Your task to perform on an android device: Clear the shopping cart on target. Add logitech g pro to the cart on target, then select checkout. Image 0: 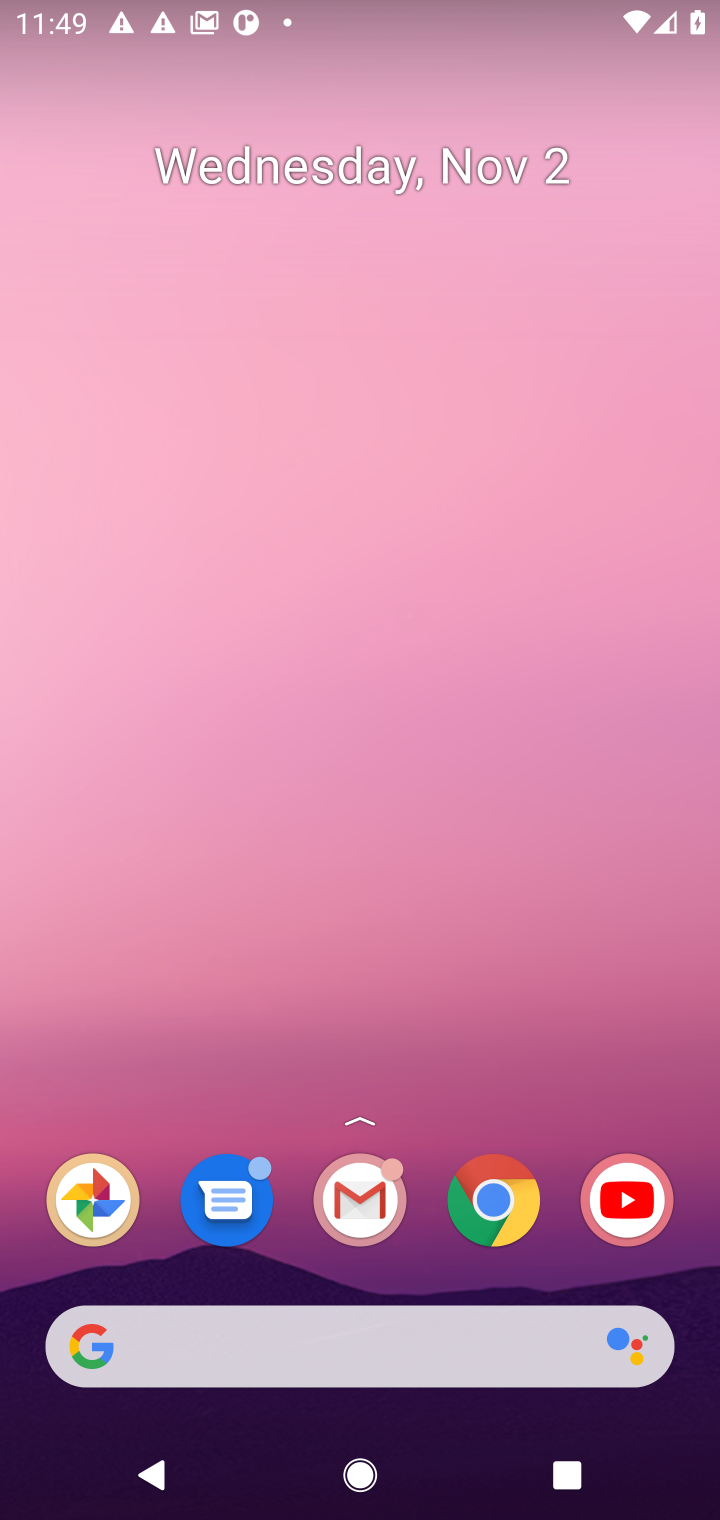
Step 0: click (491, 1205)
Your task to perform on an android device: Clear the shopping cart on target. Add logitech g pro to the cart on target, then select checkout. Image 1: 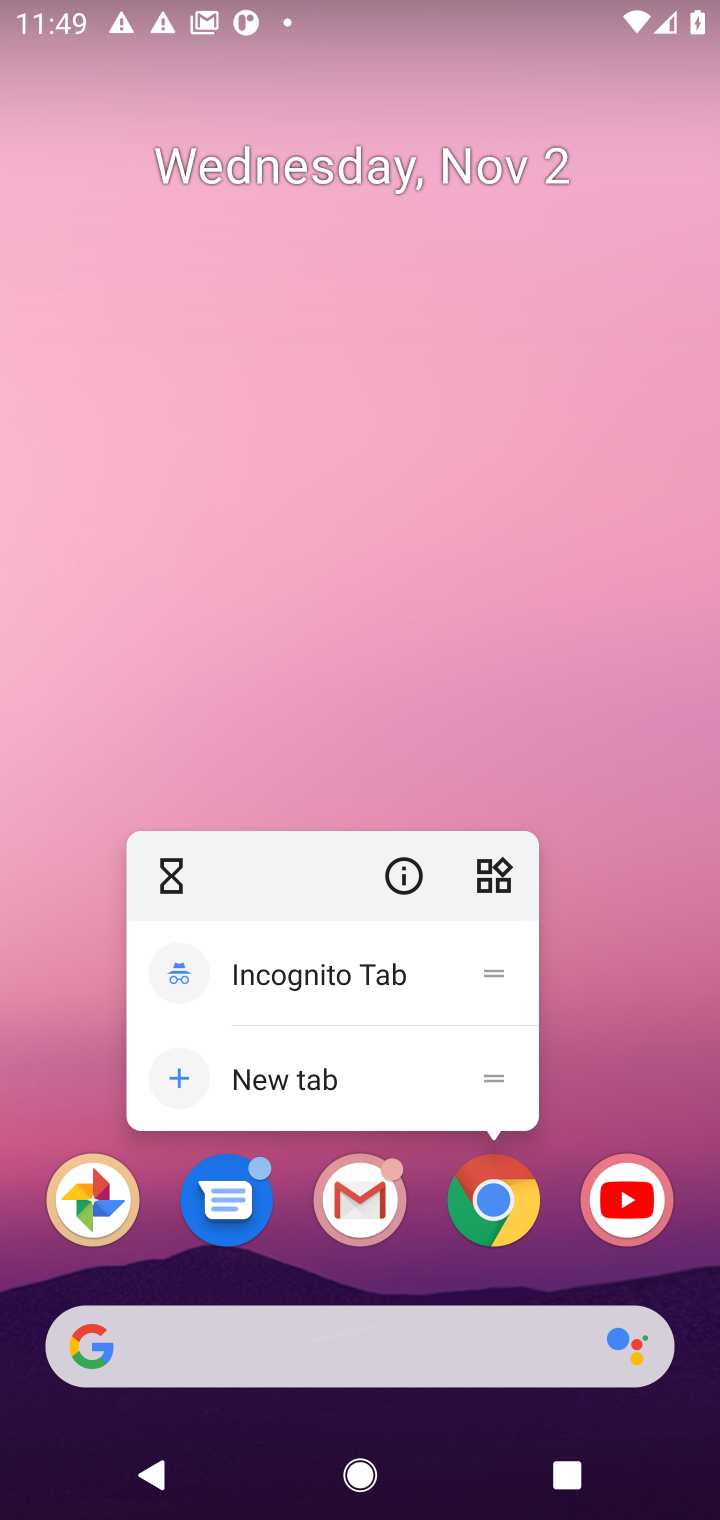
Step 1: click (491, 1205)
Your task to perform on an android device: Clear the shopping cart on target. Add logitech g pro to the cart on target, then select checkout. Image 2: 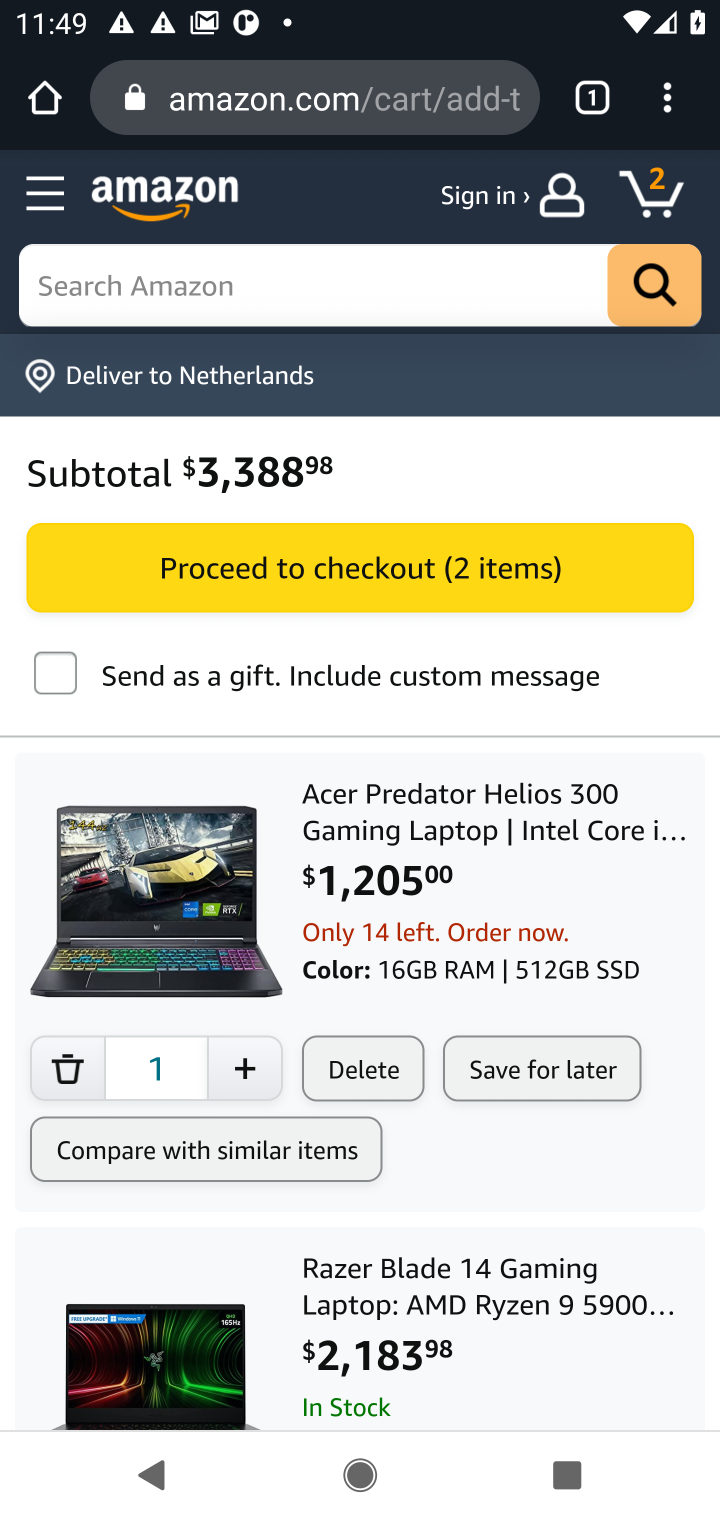
Step 2: click (49, 109)
Your task to perform on an android device: Clear the shopping cart on target. Add logitech g pro to the cart on target, then select checkout. Image 3: 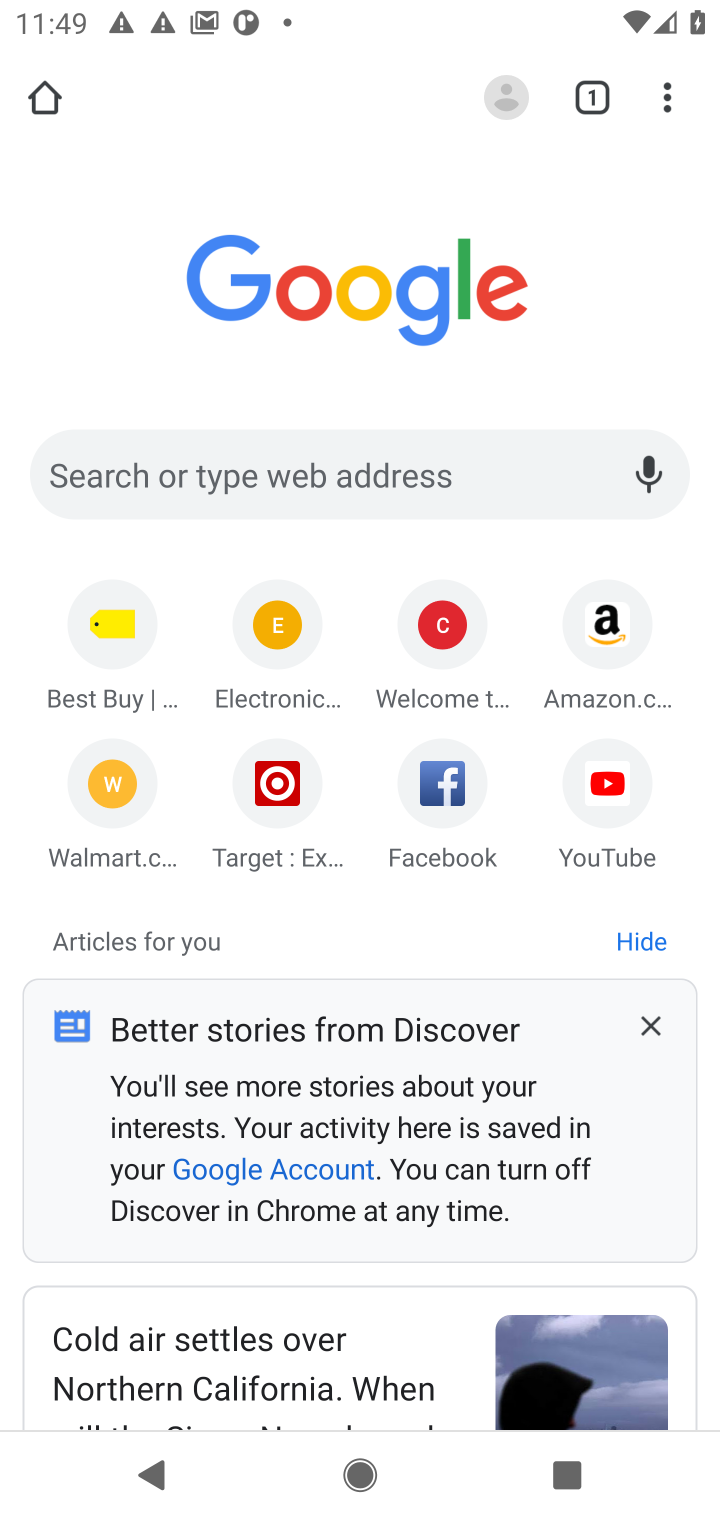
Step 3: click (459, 472)
Your task to perform on an android device: Clear the shopping cart on target. Add logitech g pro to the cart on target, then select checkout. Image 4: 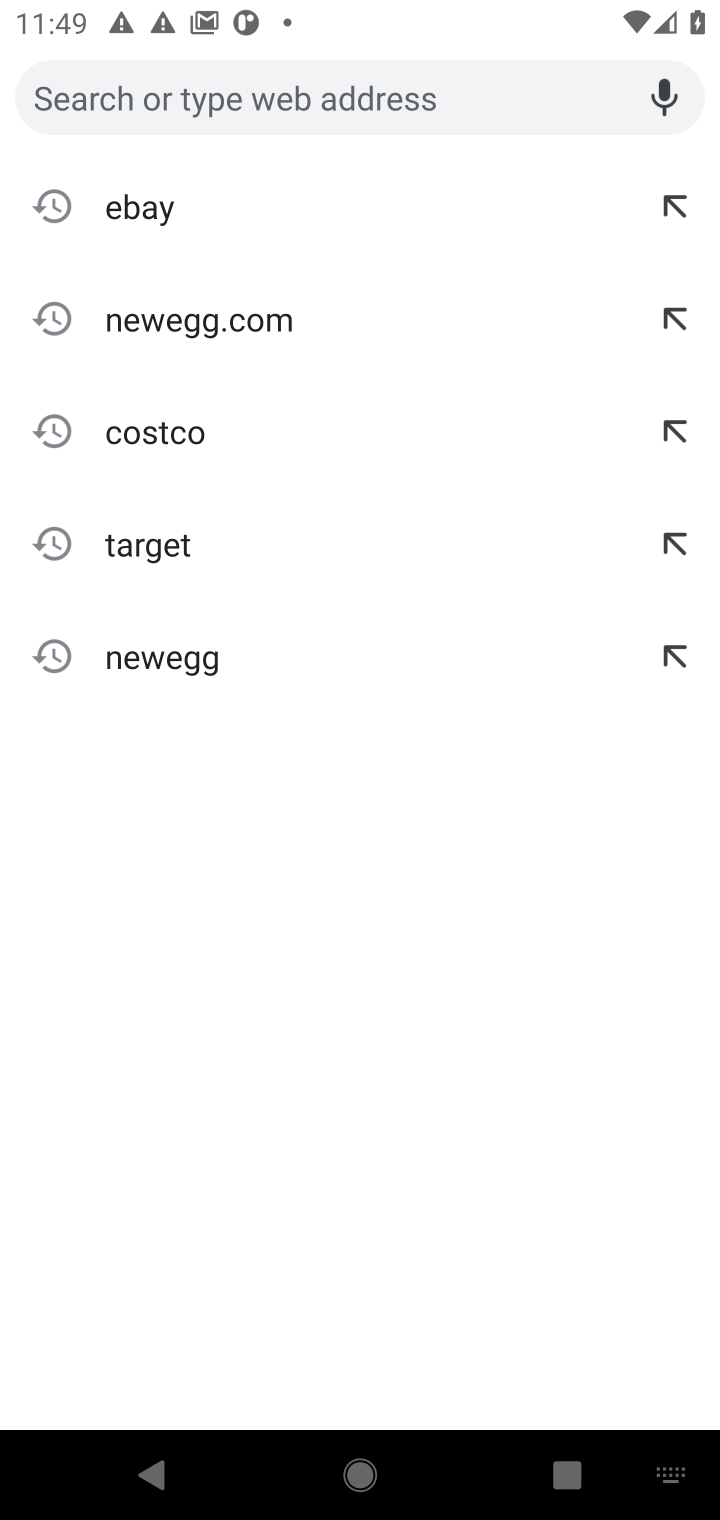
Step 4: click (168, 544)
Your task to perform on an android device: Clear the shopping cart on target. Add logitech g pro to the cart on target, then select checkout. Image 5: 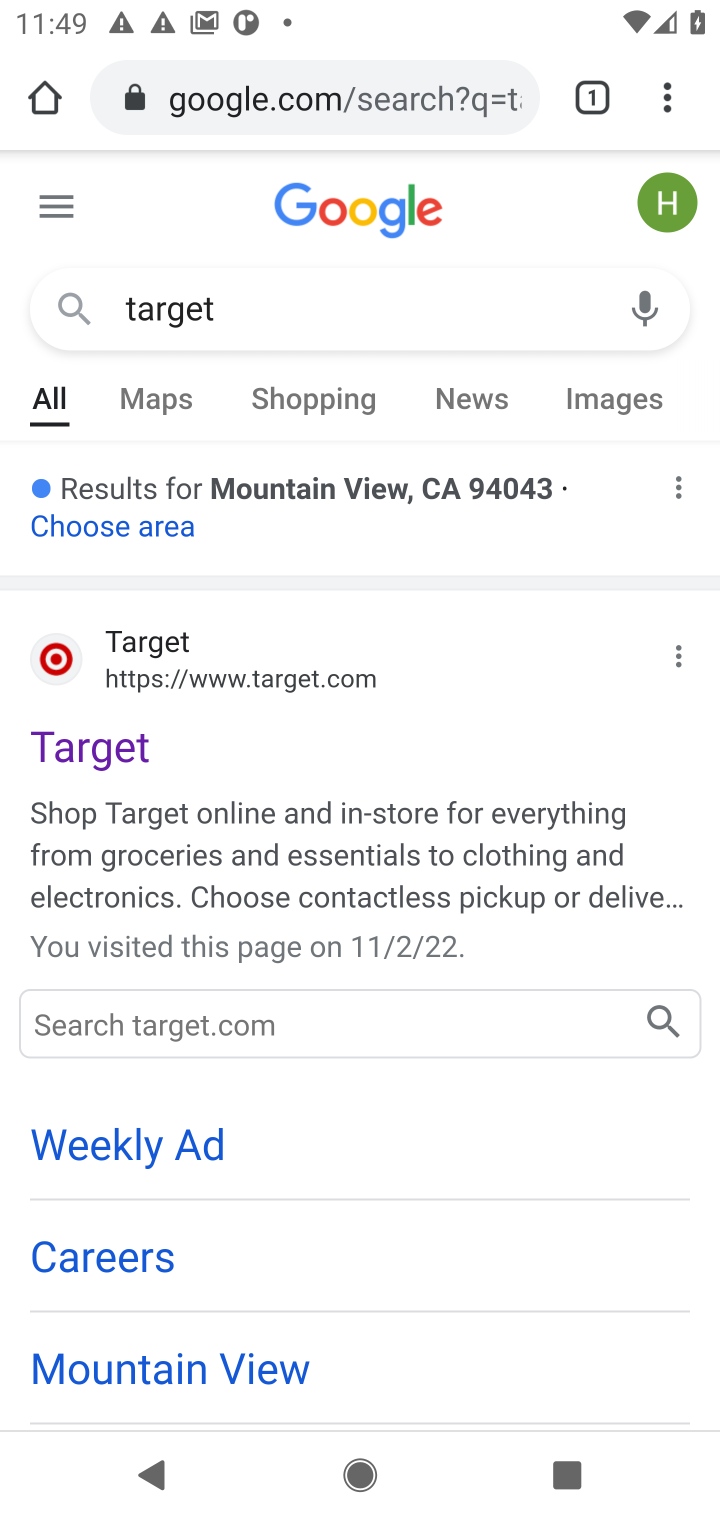
Step 5: click (166, 673)
Your task to perform on an android device: Clear the shopping cart on target. Add logitech g pro to the cart on target, then select checkout. Image 6: 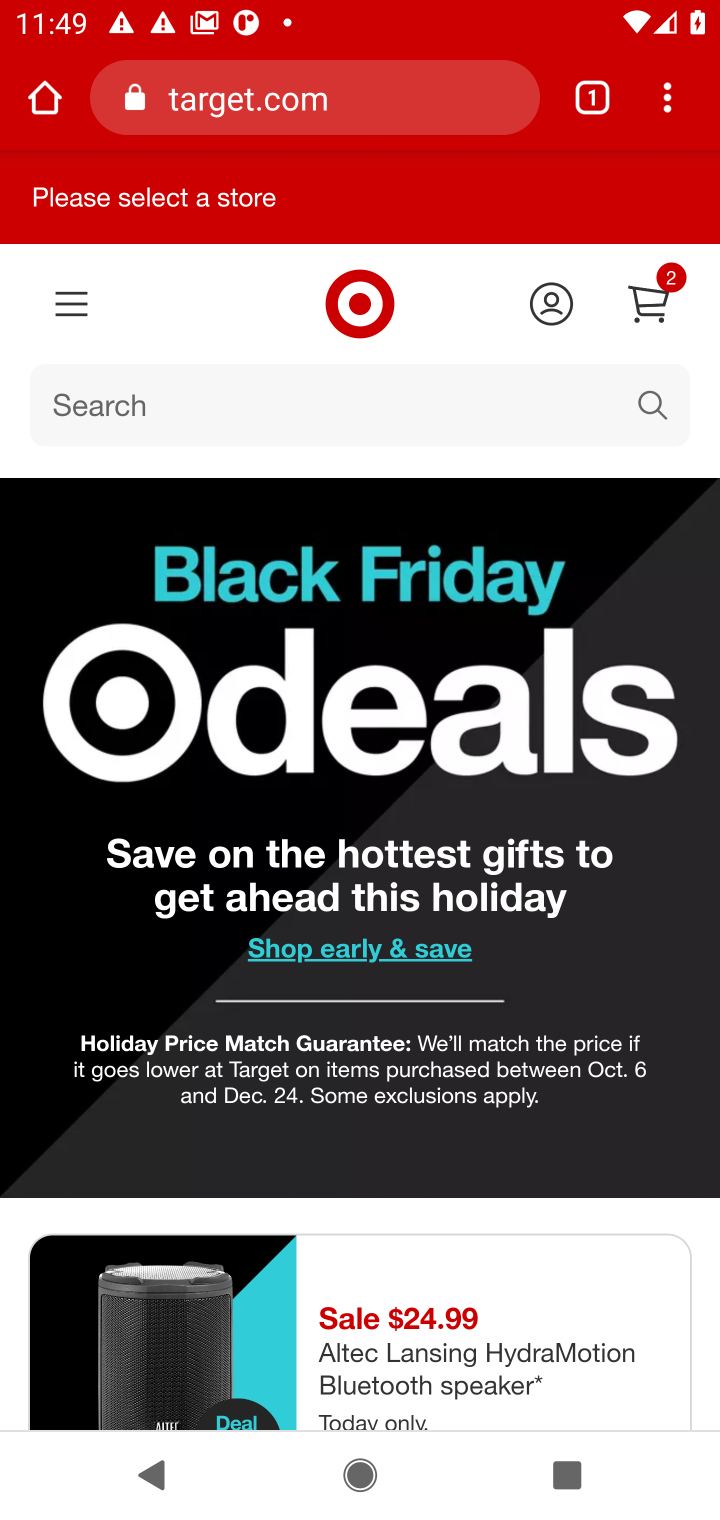
Step 6: click (646, 308)
Your task to perform on an android device: Clear the shopping cart on target. Add logitech g pro to the cart on target, then select checkout. Image 7: 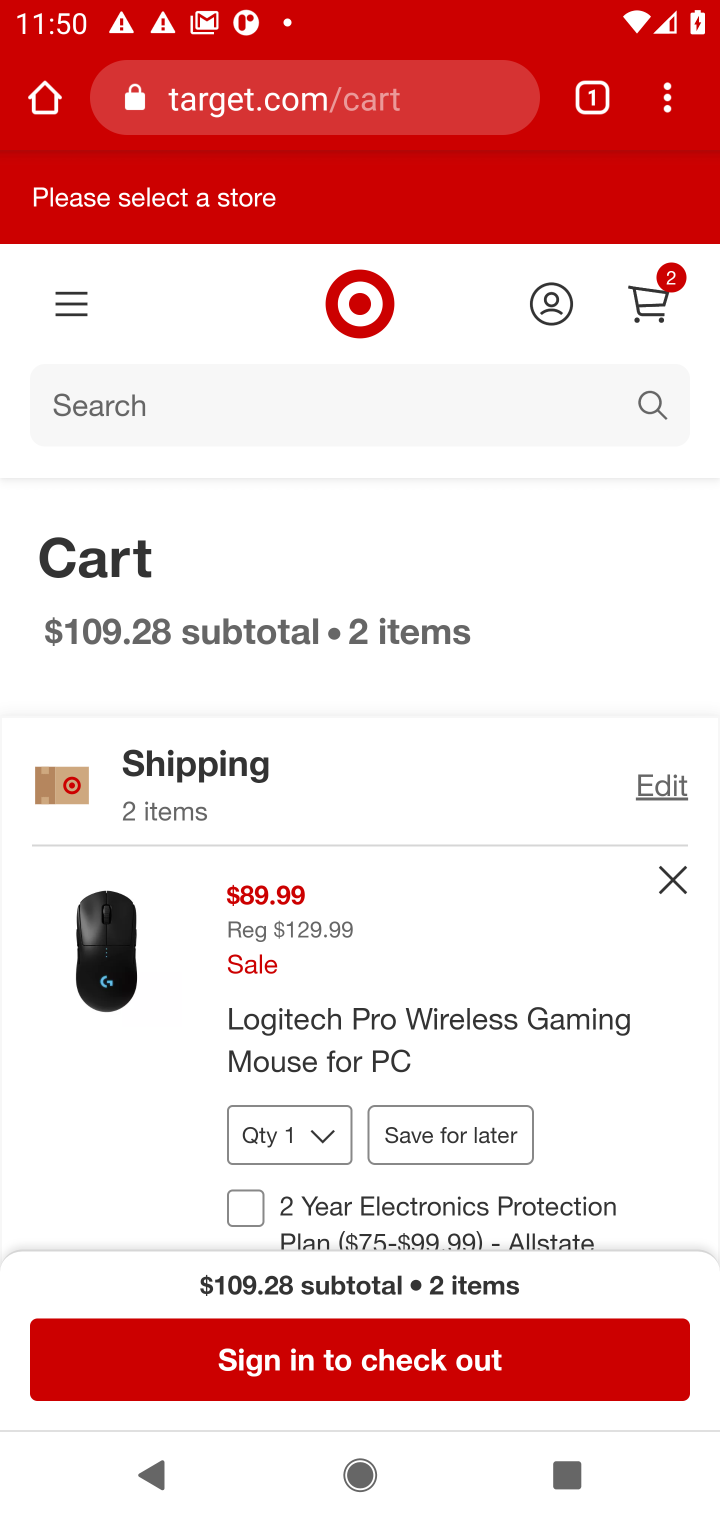
Step 7: drag from (596, 1074) to (561, 658)
Your task to perform on an android device: Clear the shopping cart on target. Add logitech g pro to the cart on target, then select checkout. Image 8: 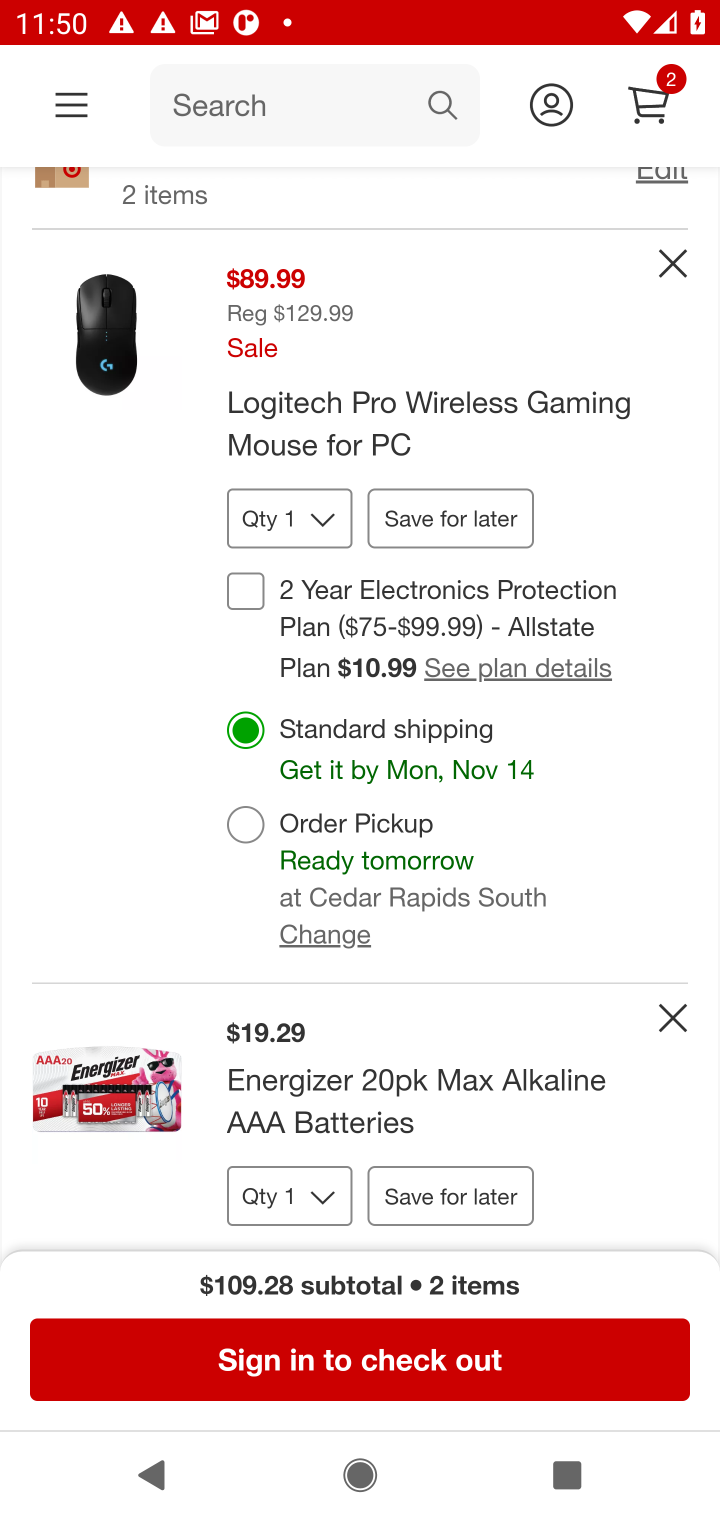
Step 8: drag from (622, 1075) to (614, 817)
Your task to perform on an android device: Clear the shopping cart on target. Add logitech g pro to the cart on target, then select checkout. Image 9: 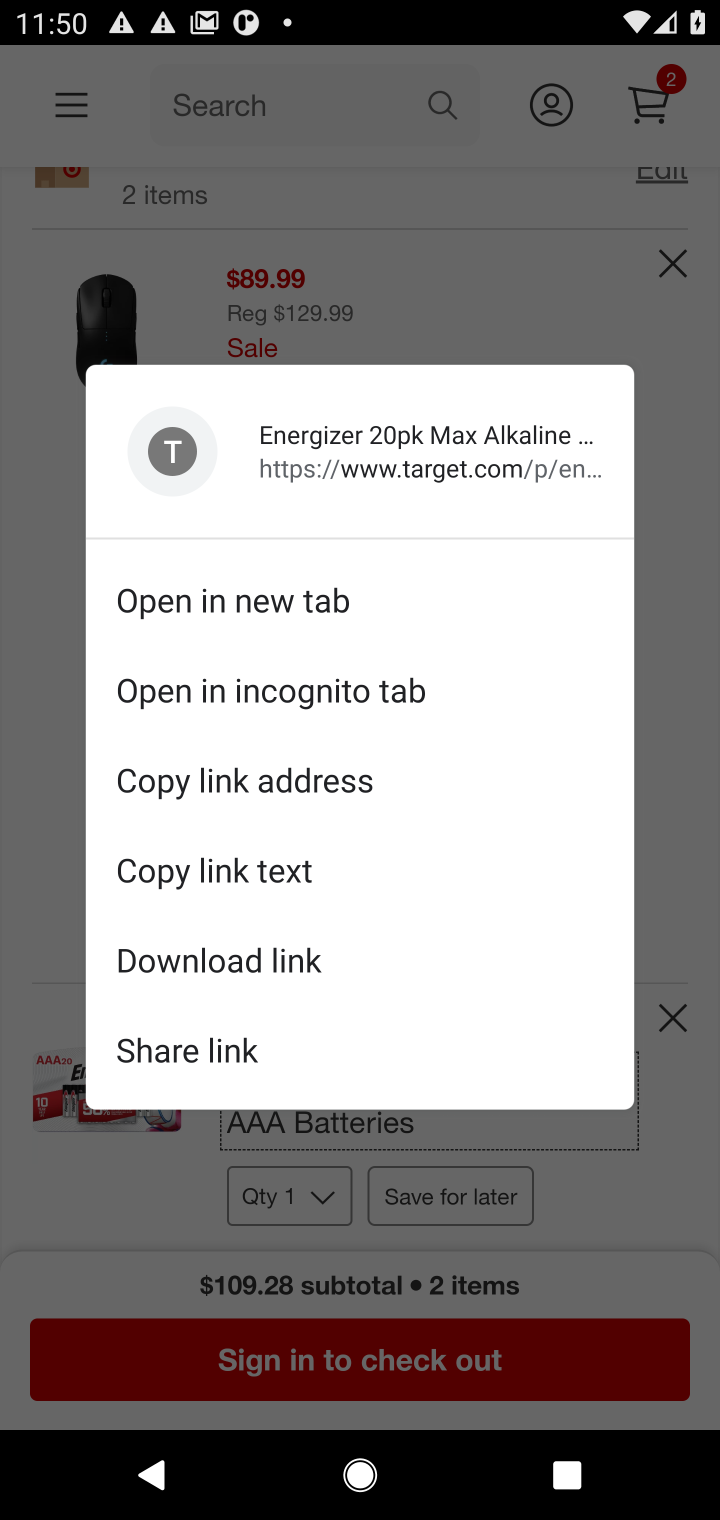
Step 9: click (656, 1158)
Your task to perform on an android device: Clear the shopping cart on target. Add logitech g pro to the cart on target, then select checkout. Image 10: 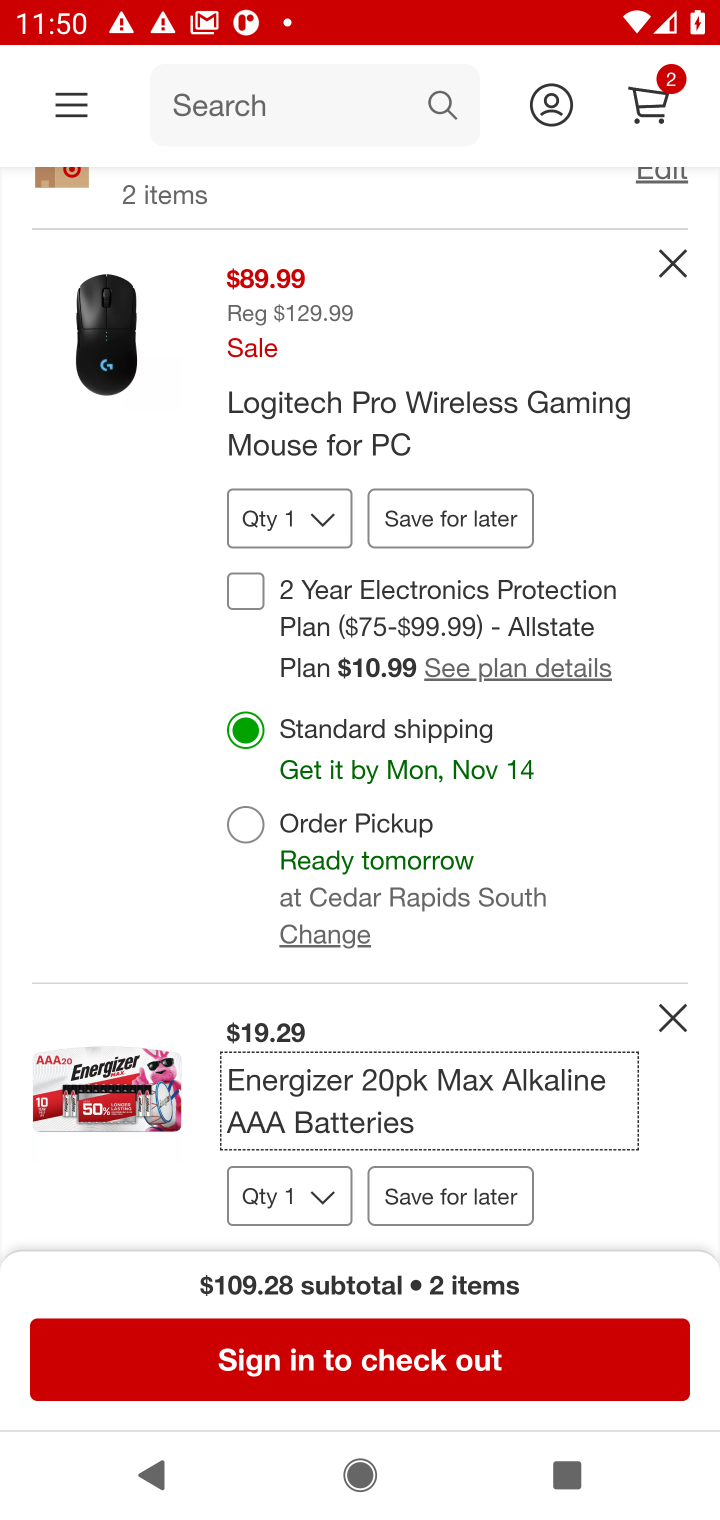
Step 10: click (680, 251)
Your task to perform on an android device: Clear the shopping cart on target. Add logitech g pro to the cart on target, then select checkout. Image 11: 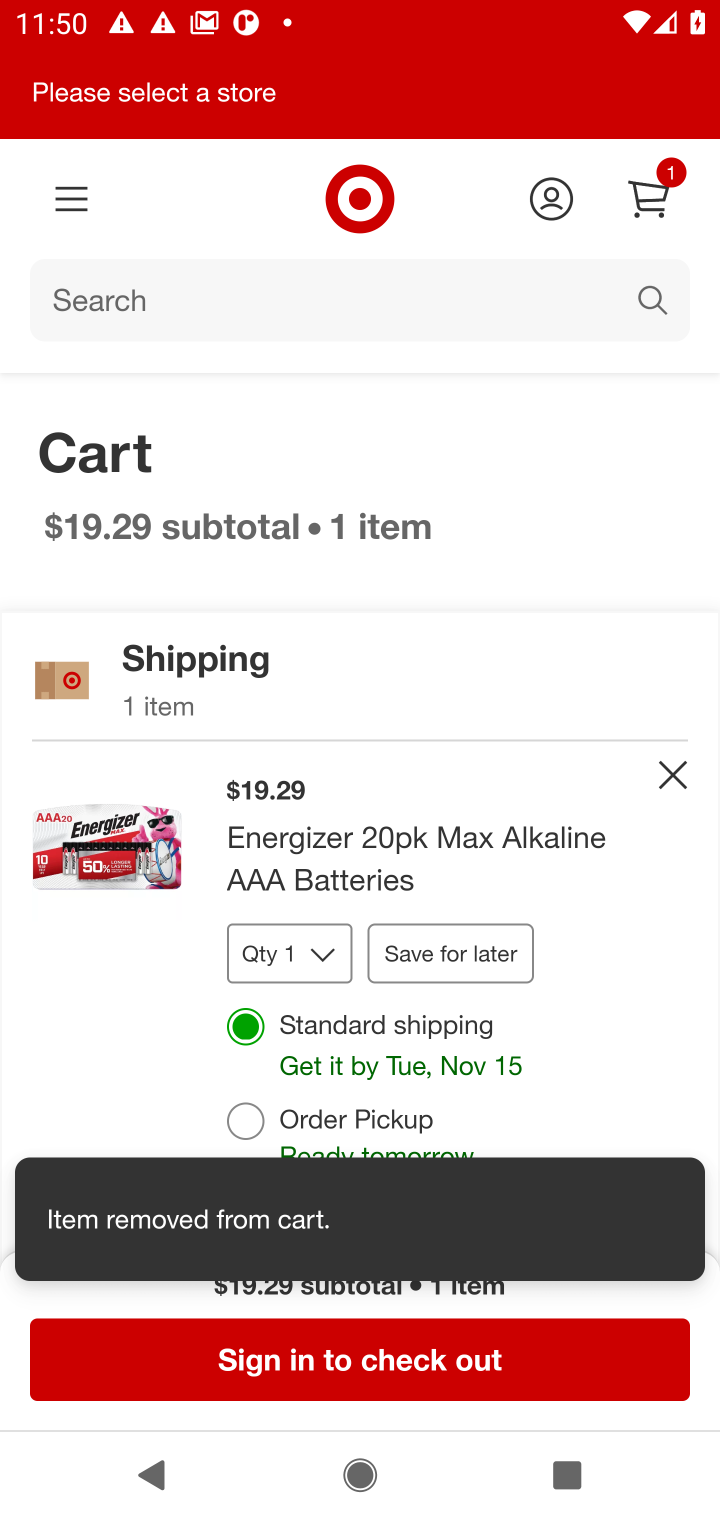
Step 11: click (687, 771)
Your task to perform on an android device: Clear the shopping cart on target. Add logitech g pro to the cart on target, then select checkout. Image 12: 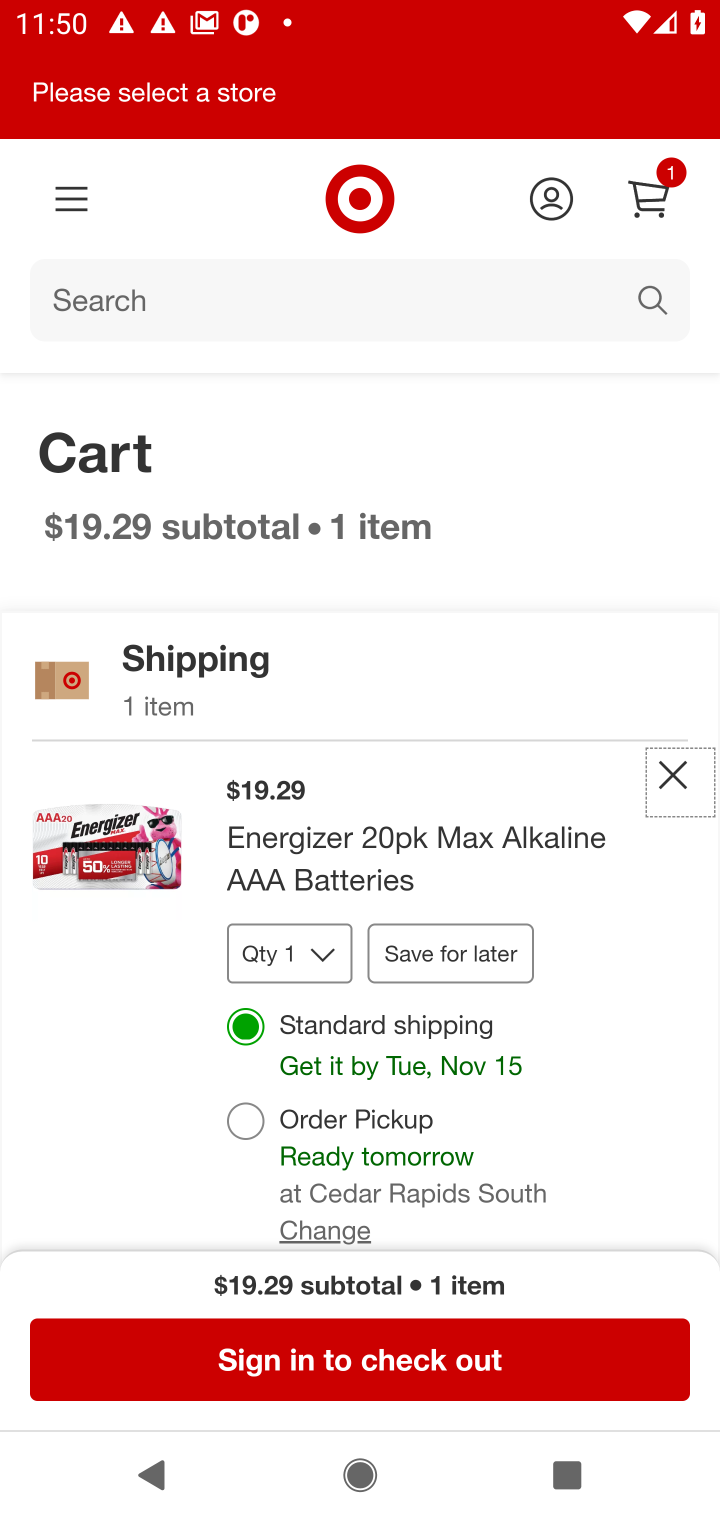
Step 12: click (675, 774)
Your task to perform on an android device: Clear the shopping cart on target. Add logitech g pro to the cart on target, then select checkout. Image 13: 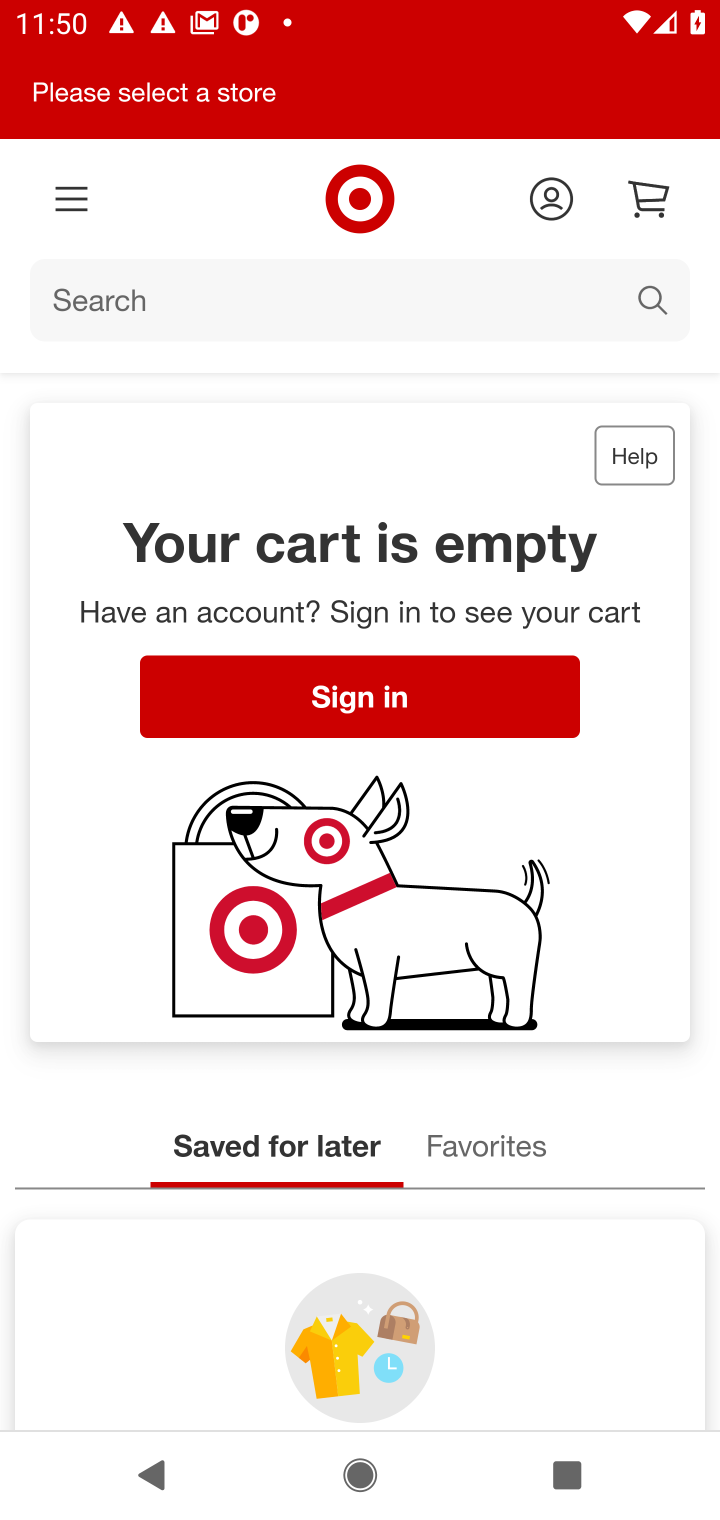
Step 13: click (635, 293)
Your task to perform on an android device: Clear the shopping cart on target. Add logitech g pro to the cart on target, then select checkout. Image 14: 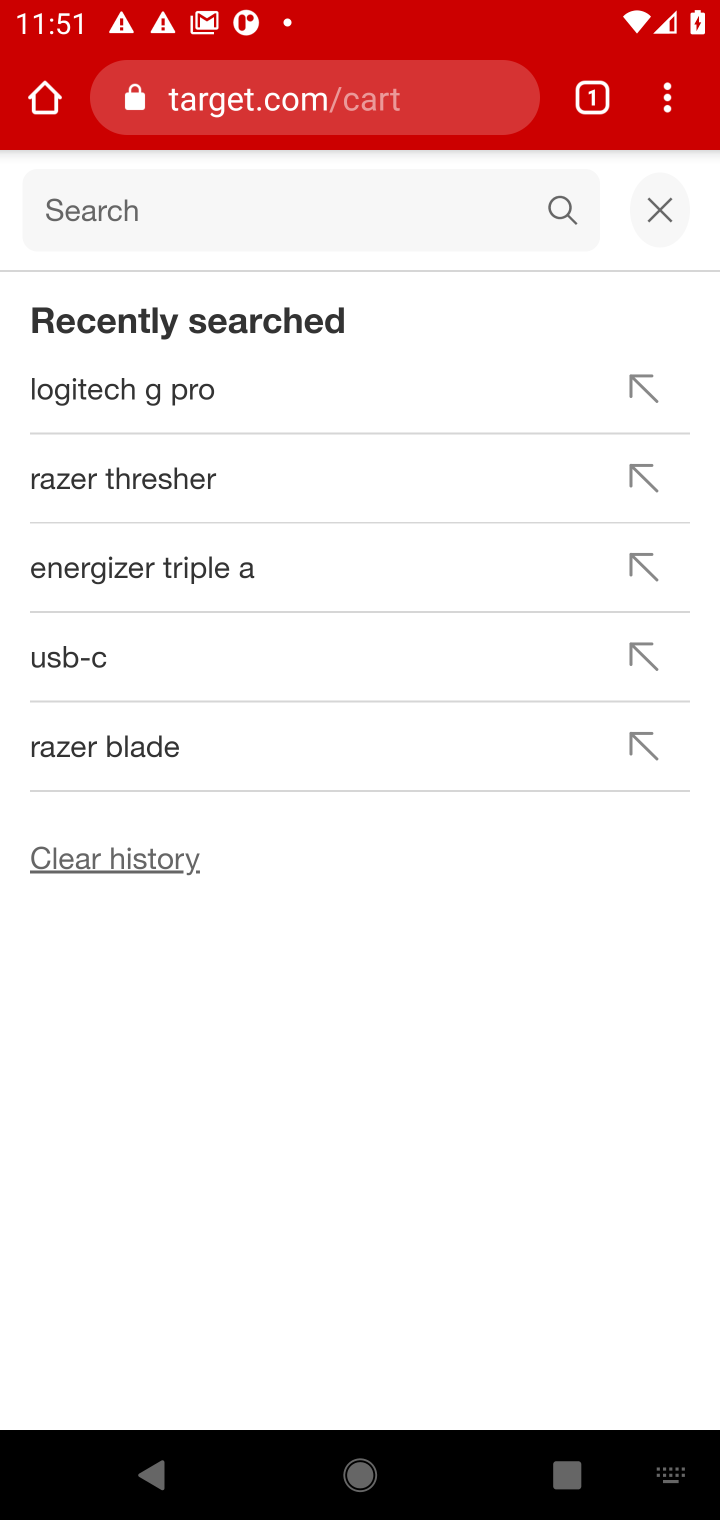
Step 14: click (176, 394)
Your task to perform on an android device: Clear the shopping cart on target. Add logitech g pro to the cart on target, then select checkout. Image 15: 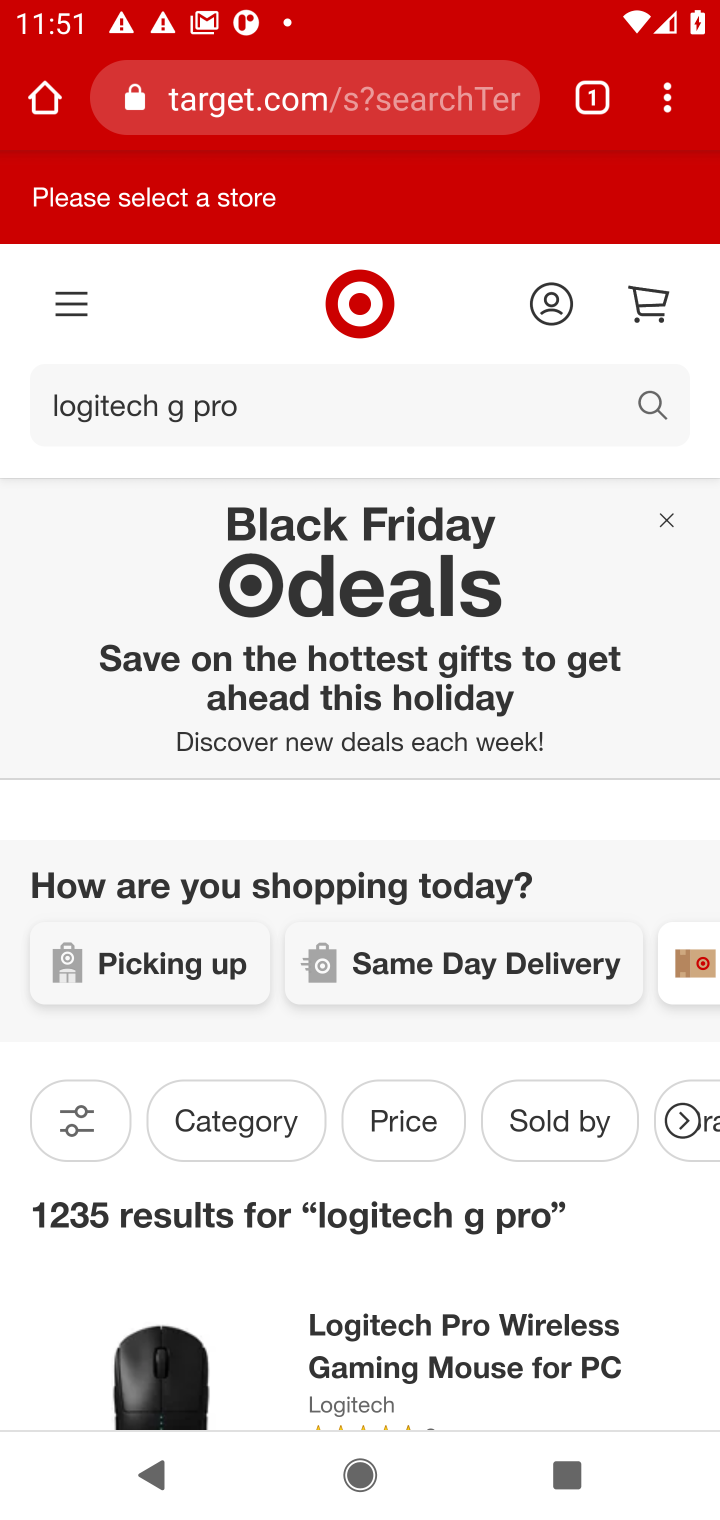
Step 15: drag from (531, 1233) to (454, 522)
Your task to perform on an android device: Clear the shopping cart on target. Add logitech g pro to the cart on target, then select checkout. Image 16: 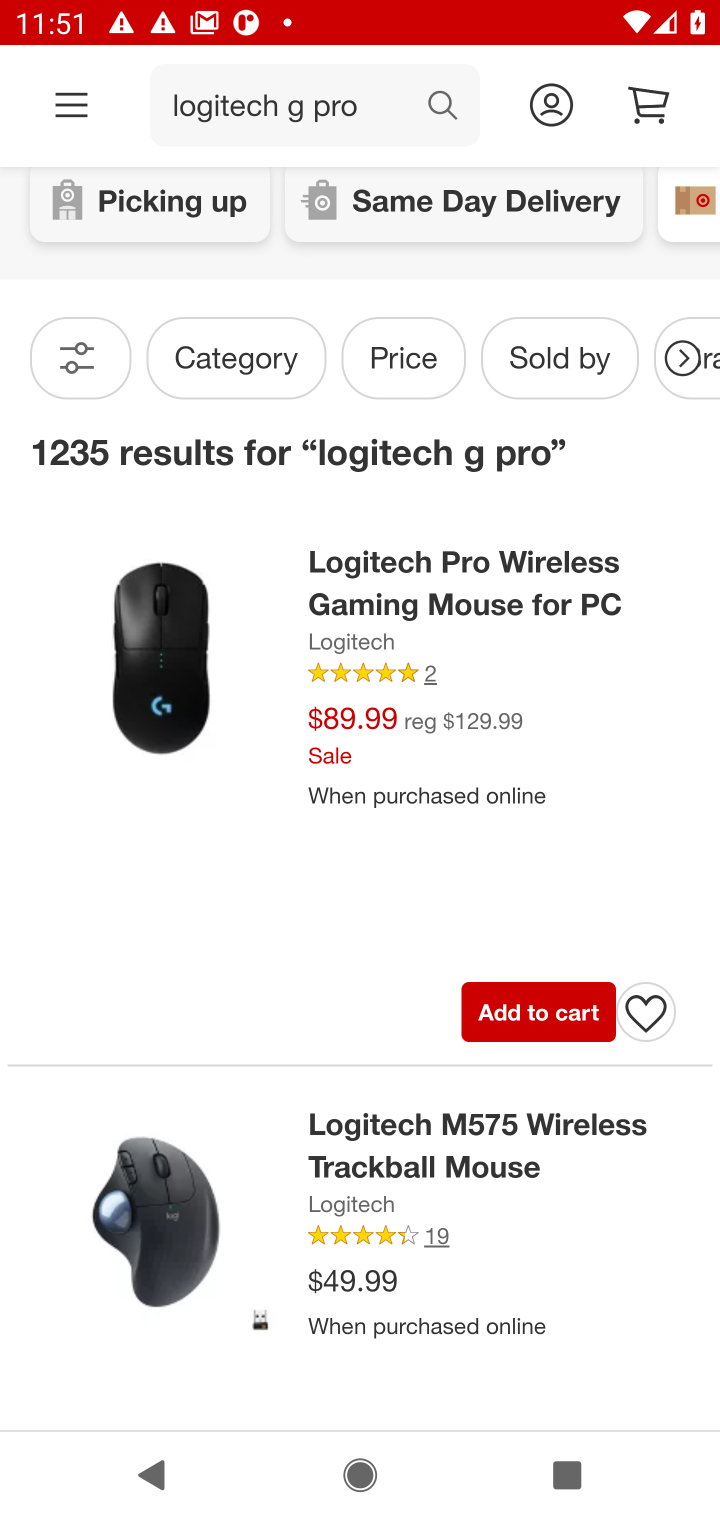
Step 16: drag from (521, 1238) to (467, 695)
Your task to perform on an android device: Clear the shopping cart on target. Add logitech g pro to the cart on target, then select checkout. Image 17: 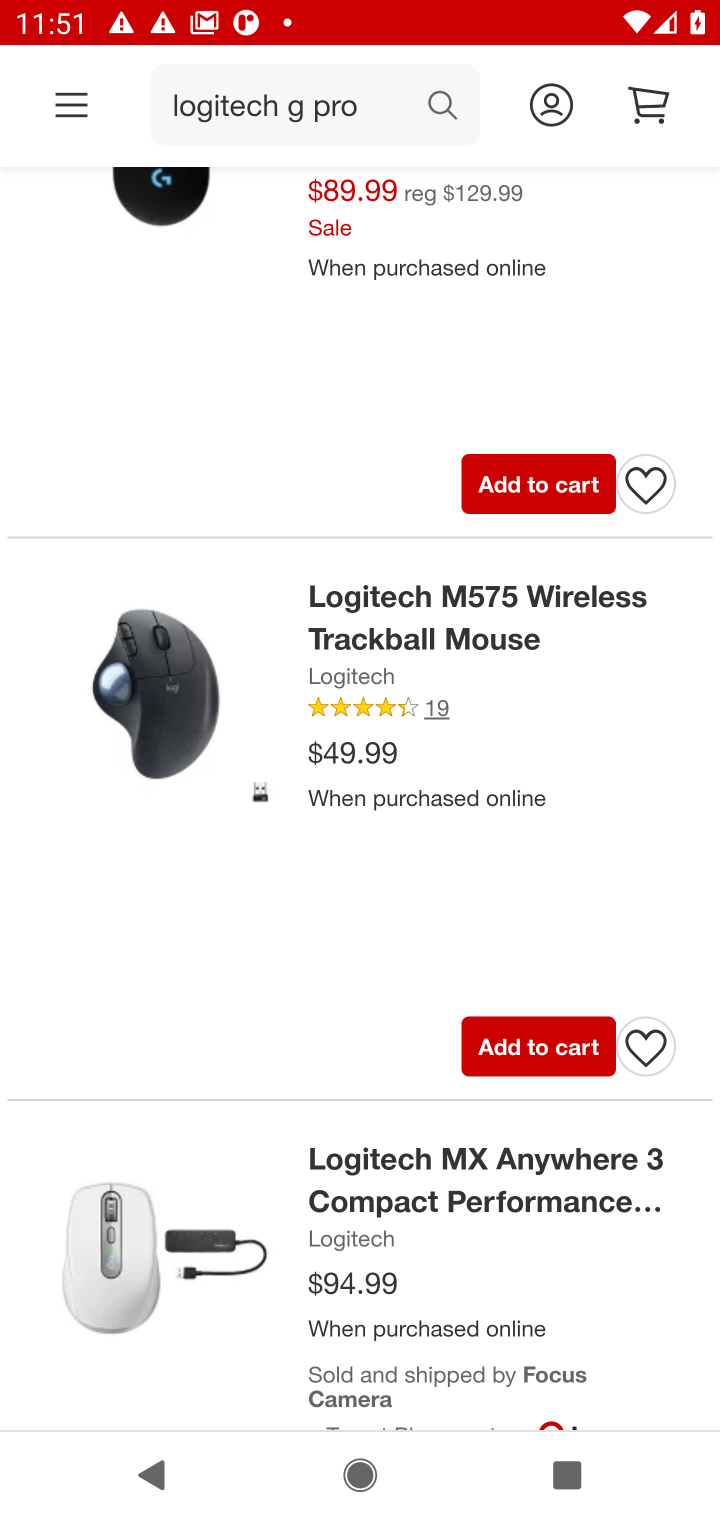
Step 17: drag from (535, 1253) to (417, 540)
Your task to perform on an android device: Clear the shopping cart on target. Add logitech g pro to the cart on target, then select checkout. Image 18: 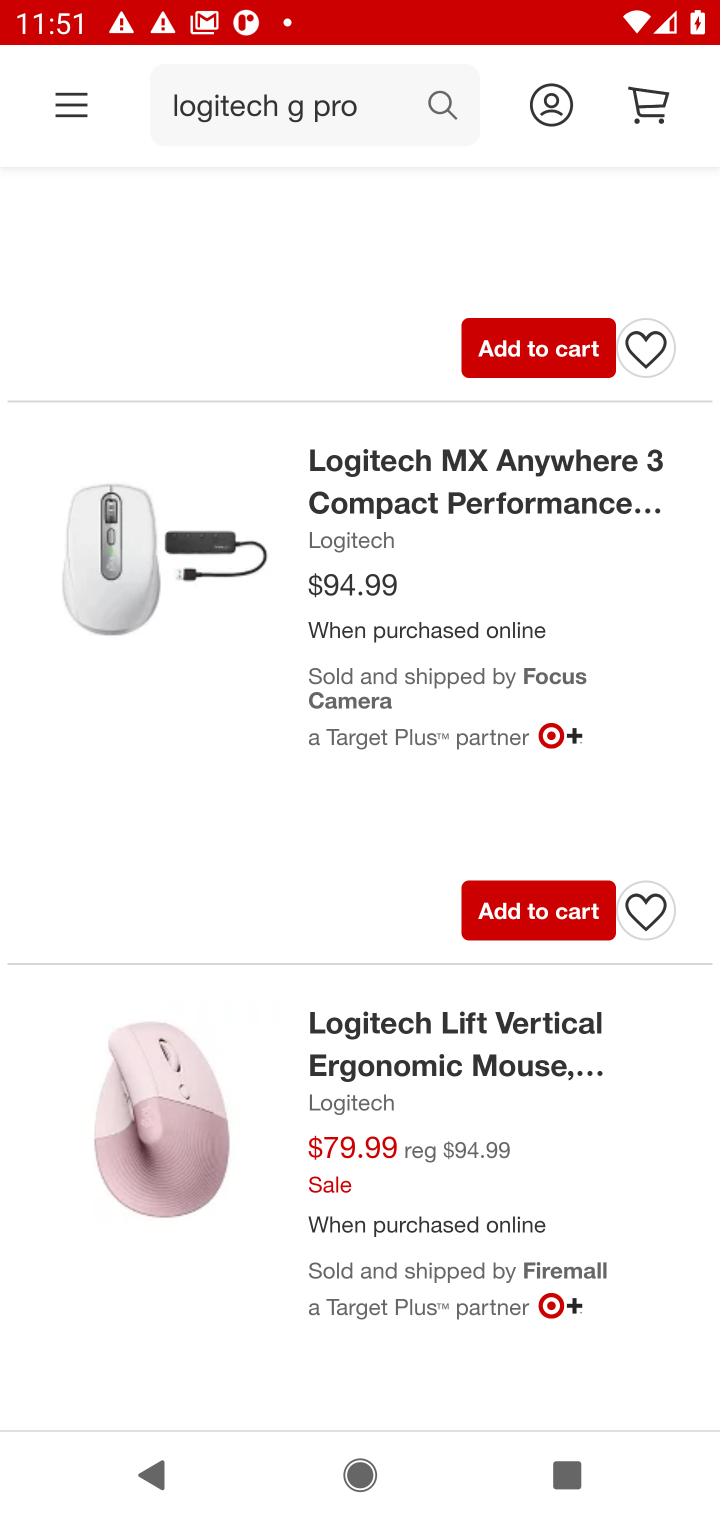
Step 18: drag from (570, 1132) to (508, 555)
Your task to perform on an android device: Clear the shopping cart on target. Add logitech g pro to the cart on target, then select checkout. Image 19: 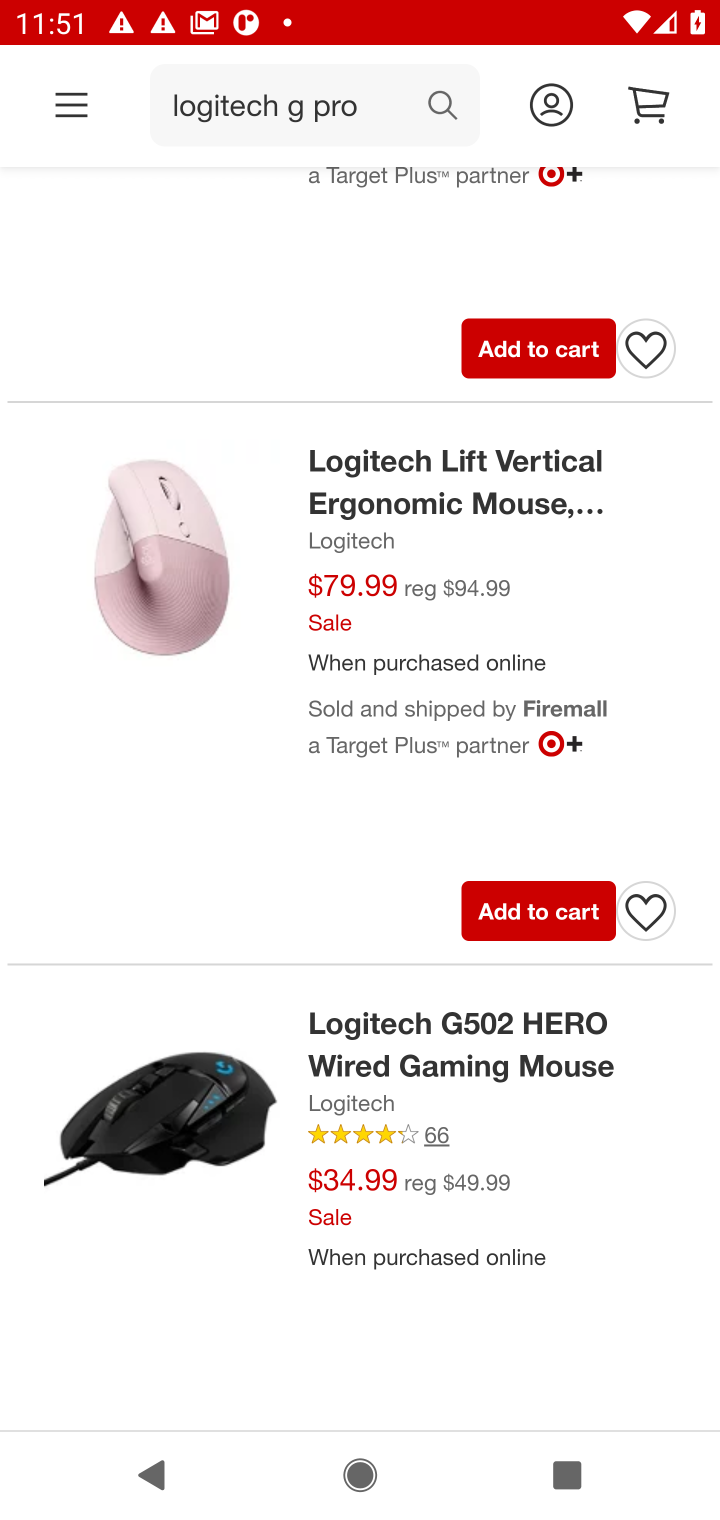
Step 19: drag from (582, 1113) to (567, 632)
Your task to perform on an android device: Clear the shopping cart on target. Add logitech g pro to the cart on target, then select checkout. Image 20: 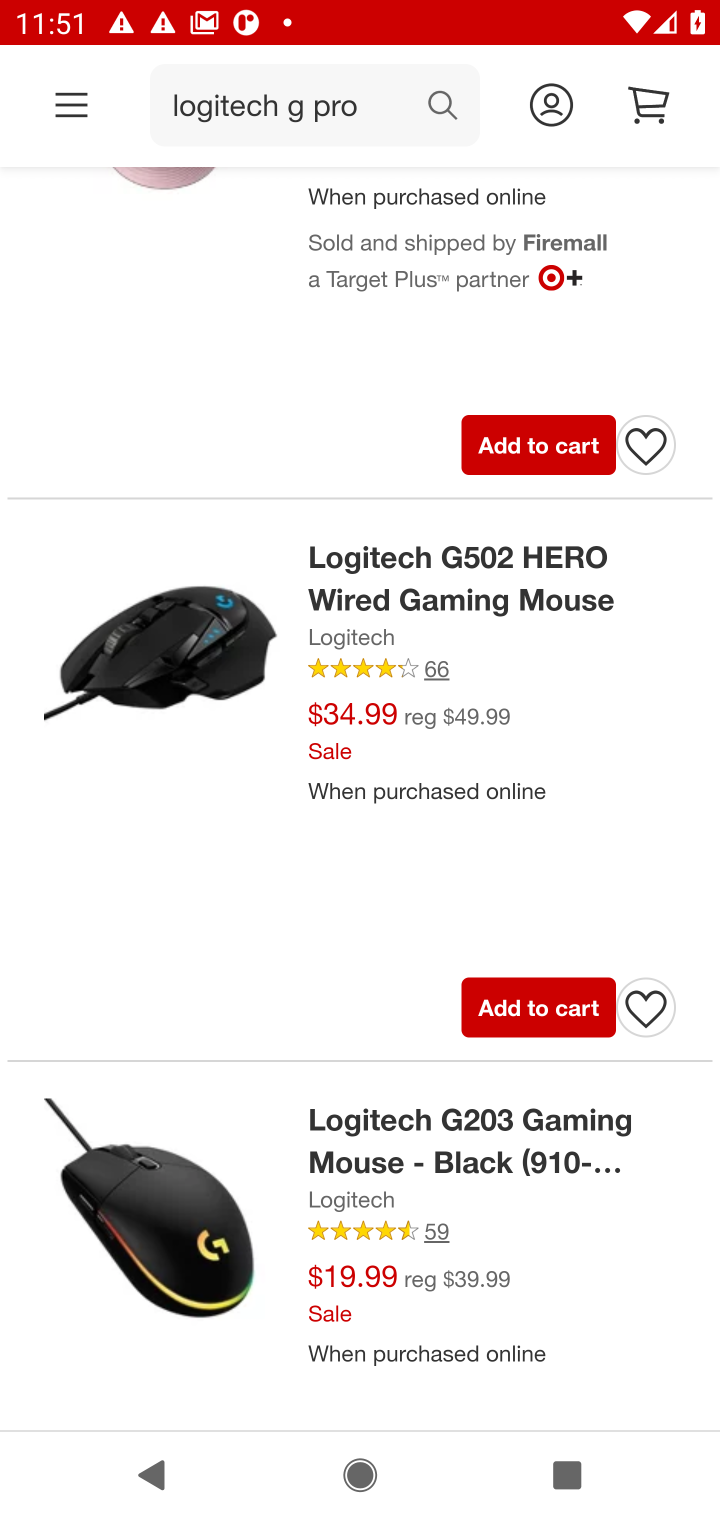
Step 20: drag from (305, 408) to (354, 1248)
Your task to perform on an android device: Clear the shopping cart on target. Add logitech g pro to the cart on target, then select checkout. Image 21: 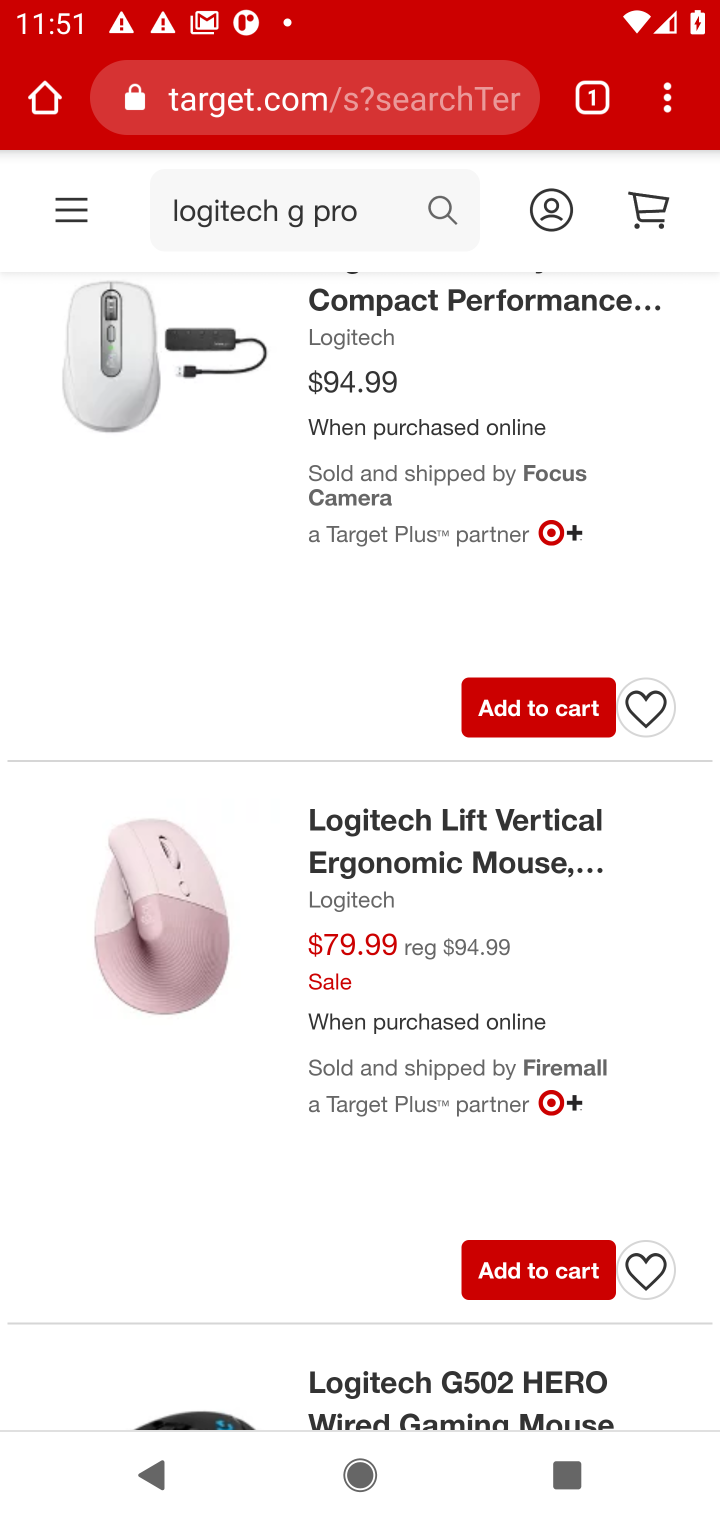
Step 21: drag from (500, 504) to (583, 1147)
Your task to perform on an android device: Clear the shopping cart on target. Add logitech g pro to the cart on target, then select checkout. Image 22: 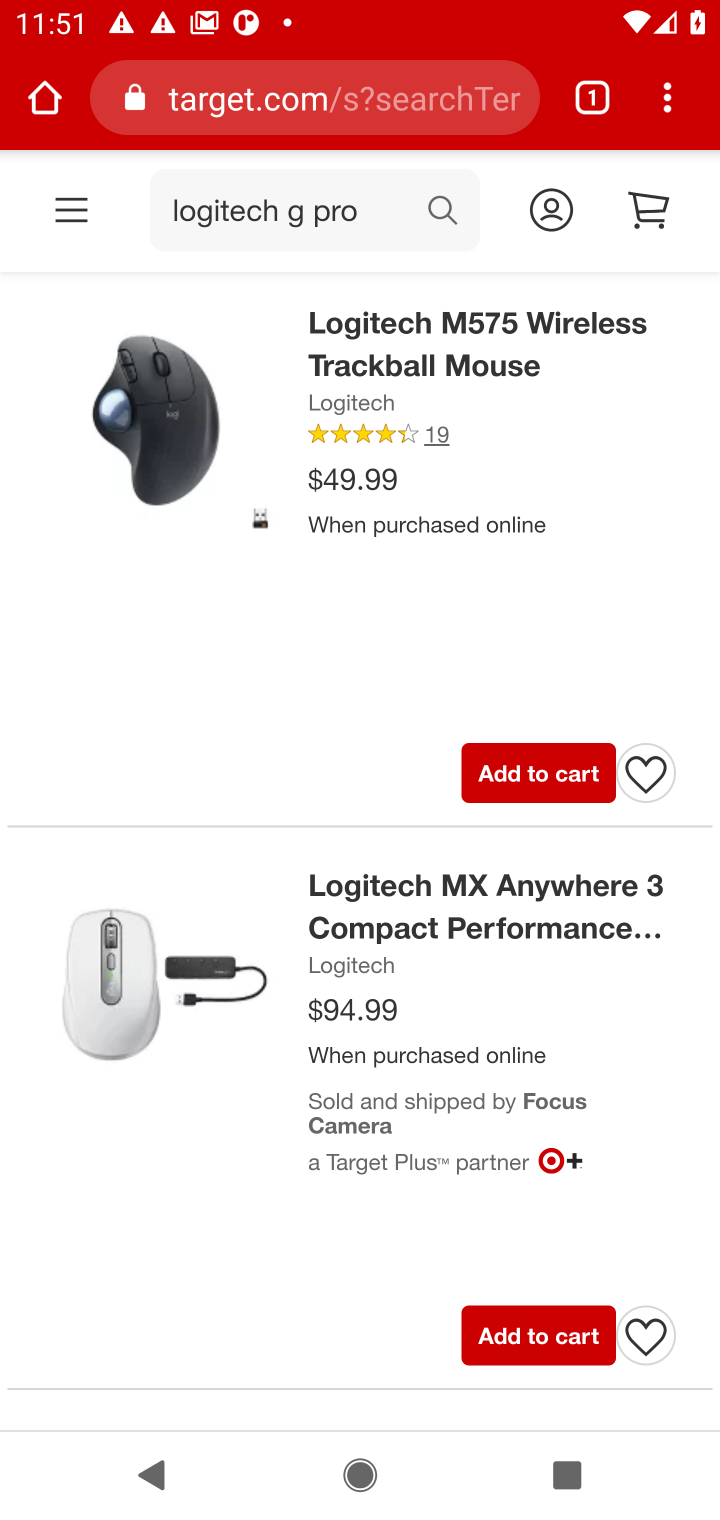
Step 22: drag from (545, 463) to (553, 1148)
Your task to perform on an android device: Clear the shopping cart on target. Add logitech g pro to the cart on target, then select checkout. Image 23: 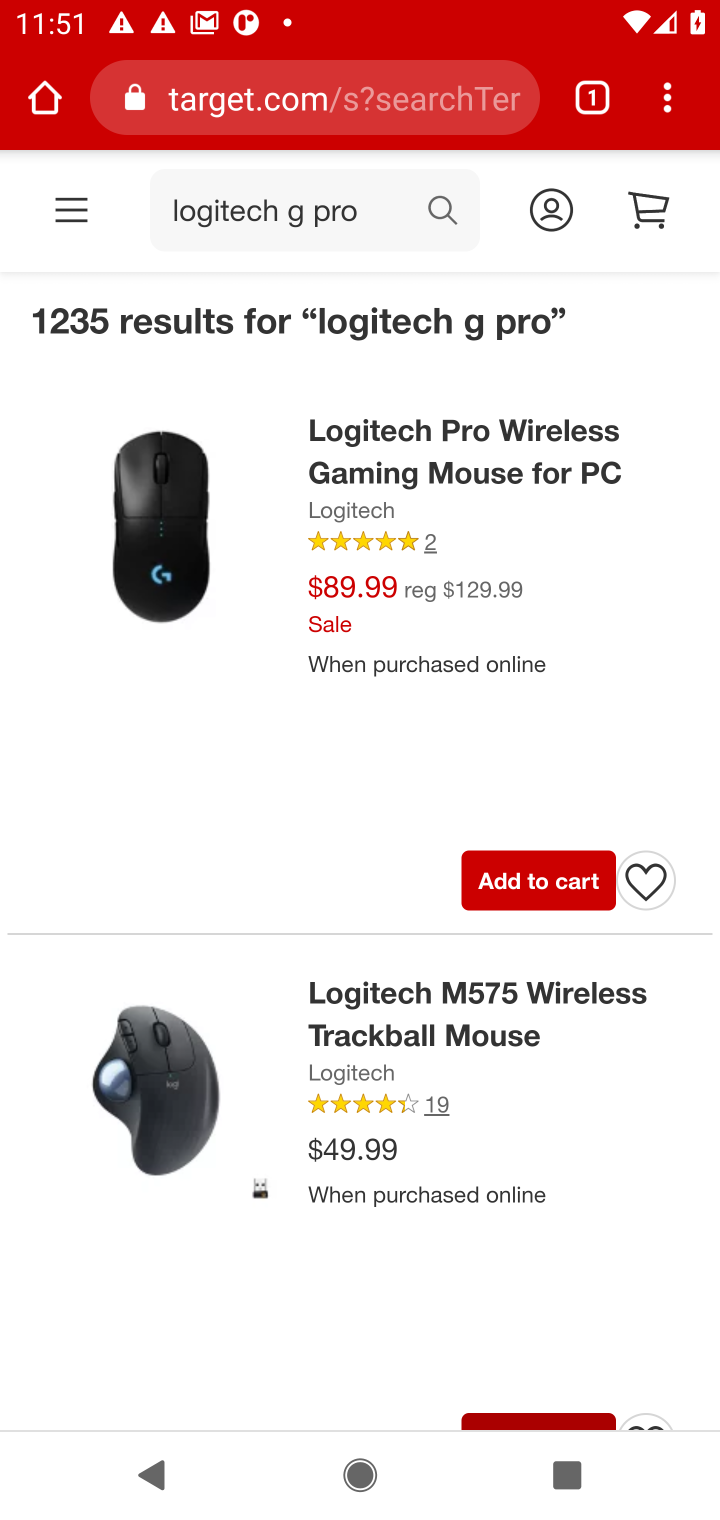
Step 23: drag from (509, 388) to (440, 1246)
Your task to perform on an android device: Clear the shopping cart on target. Add logitech g pro to the cart on target, then select checkout. Image 24: 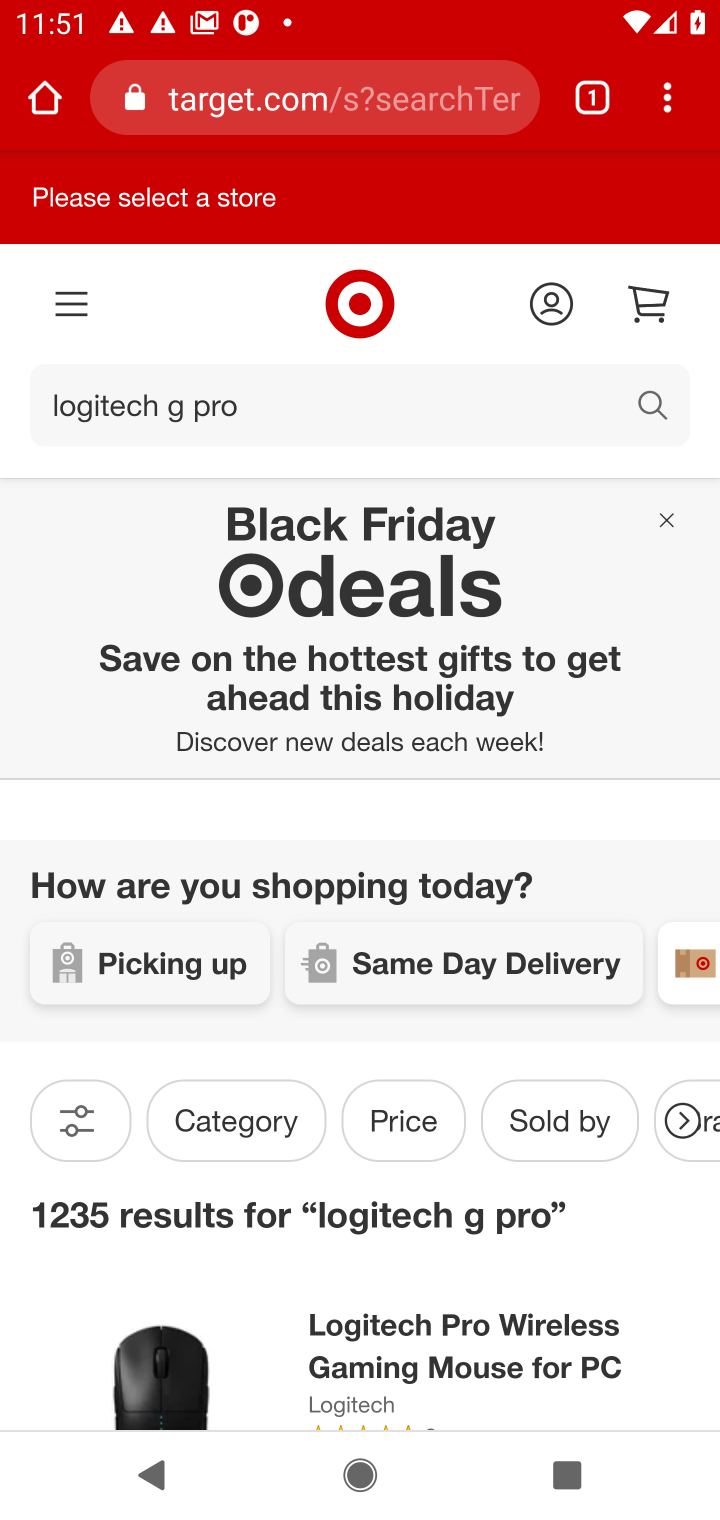
Step 24: drag from (336, 1227) to (429, 887)
Your task to perform on an android device: Clear the shopping cart on target. Add logitech g pro to the cart on target, then select checkout. Image 25: 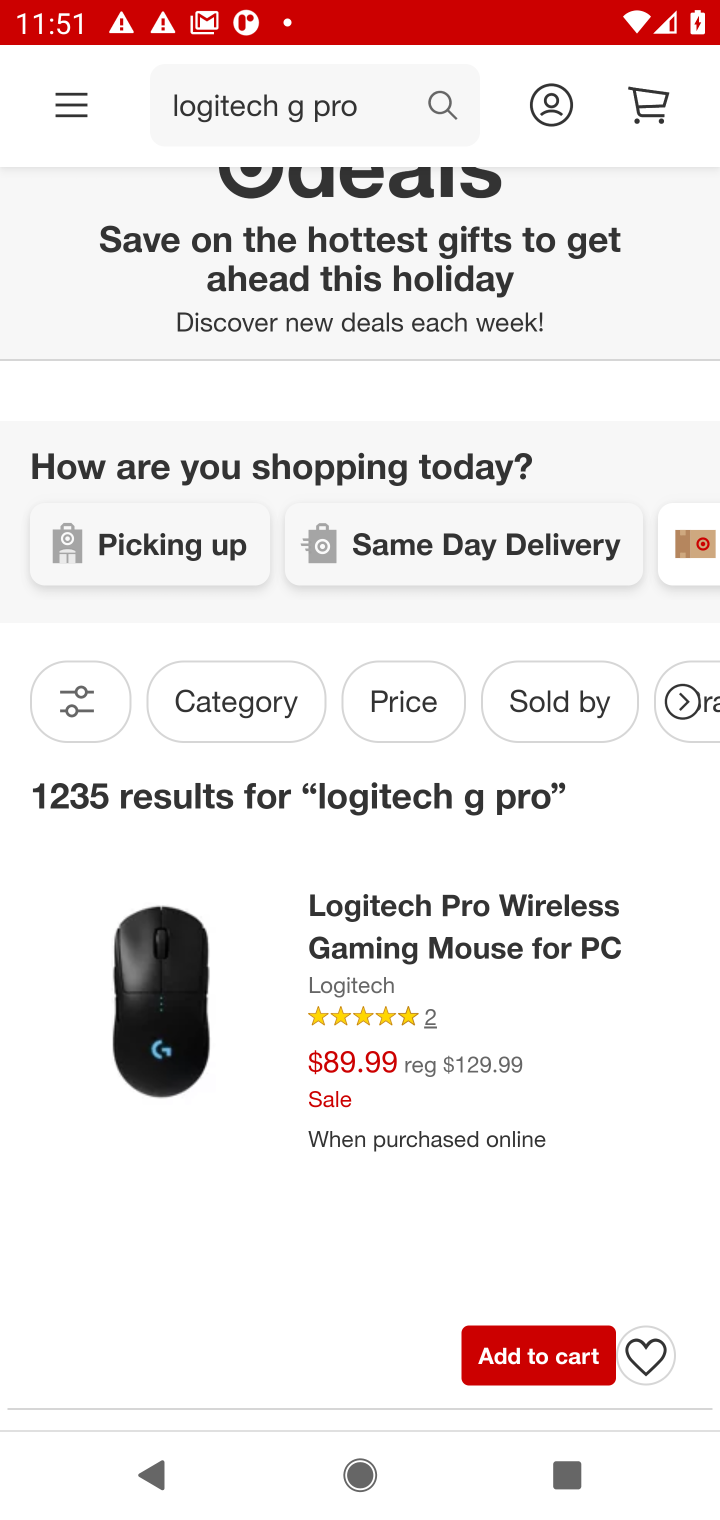
Step 25: click (159, 996)
Your task to perform on an android device: Clear the shopping cart on target. Add logitech g pro to the cart on target, then select checkout. Image 26: 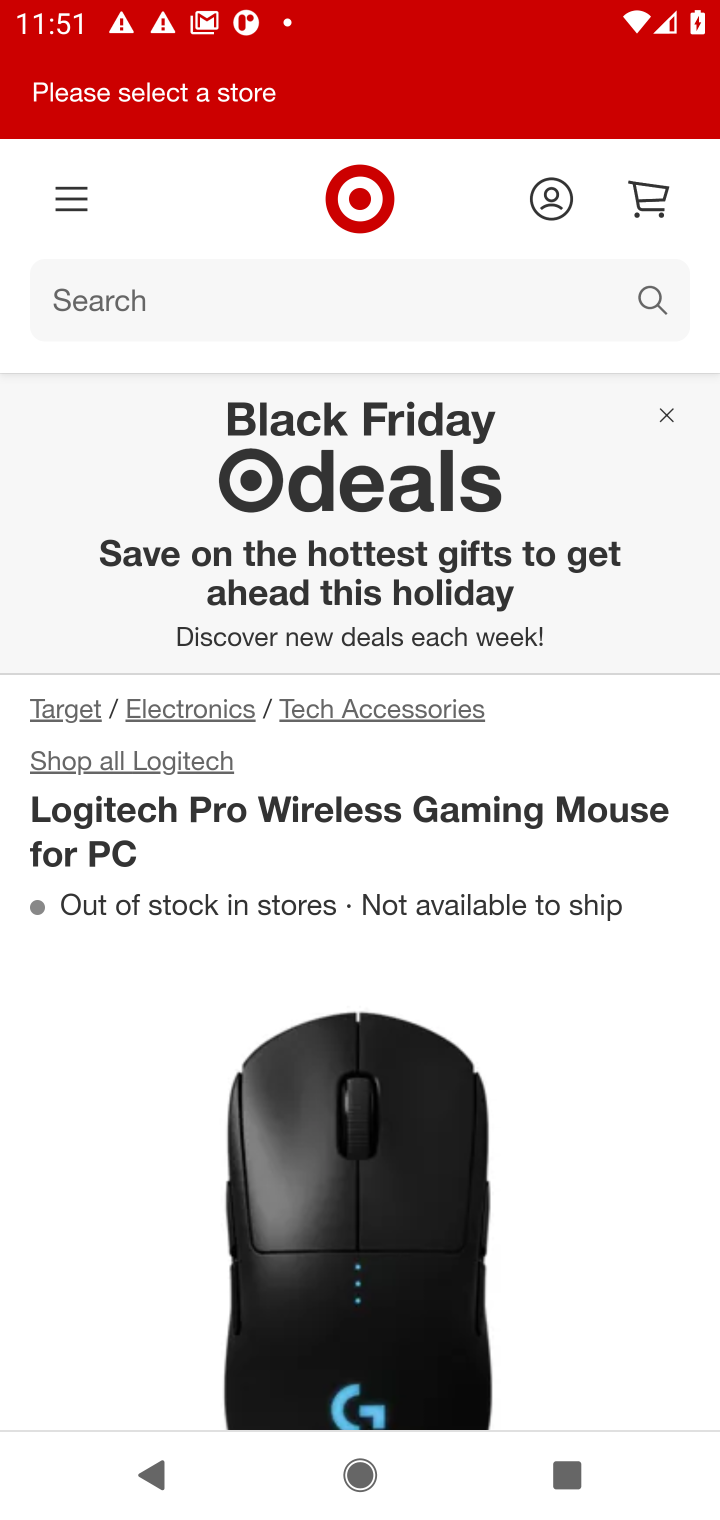
Step 26: drag from (622, 1161) to (536, 432)
Your task to perform on an android device: Clear the shopping cart on target. Add logitech g pro to the cart on target, then select checkout. Image 27: 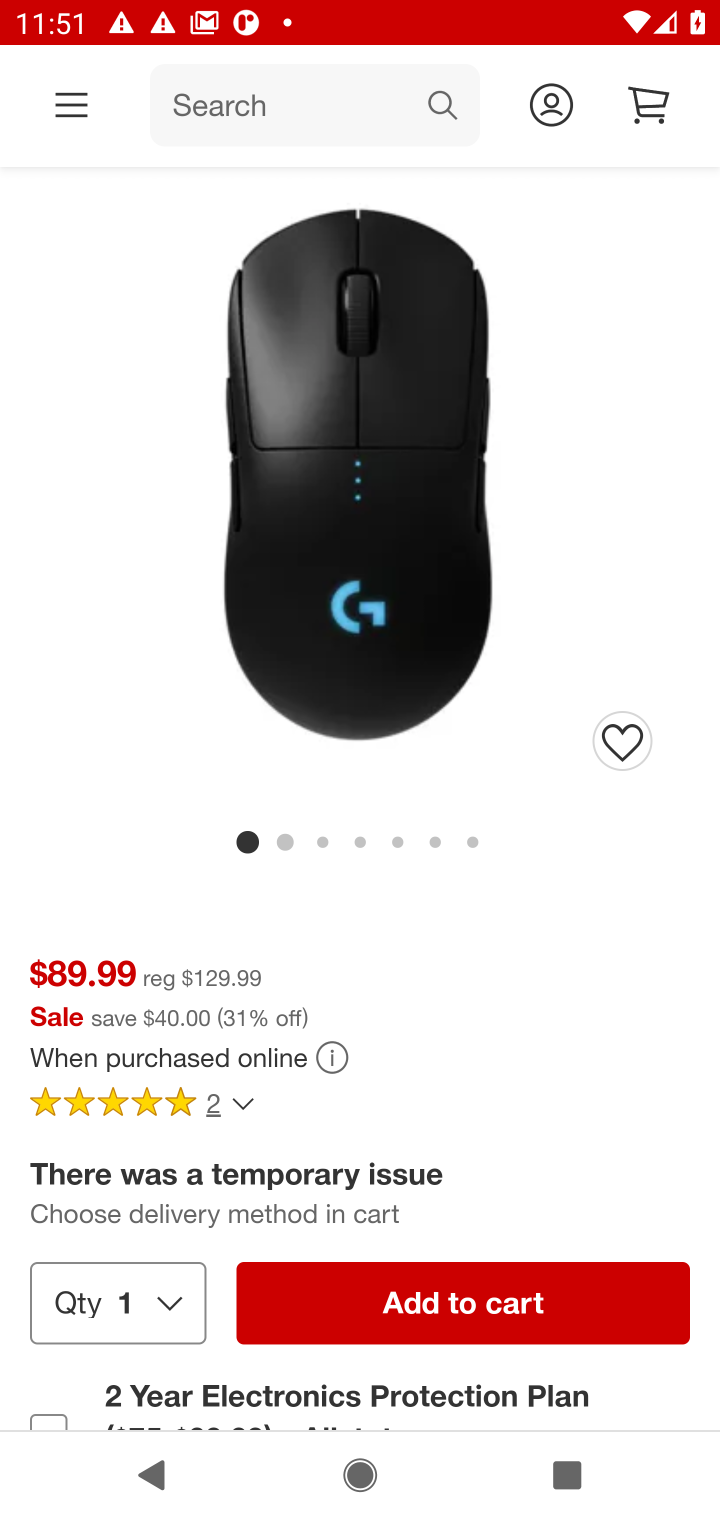
Step 27: click (561, 1292)
Your task to perform on an android device: Clear the shopping cart on target. Add logitech g pro to the cart on target, then select checkout. Image 28: 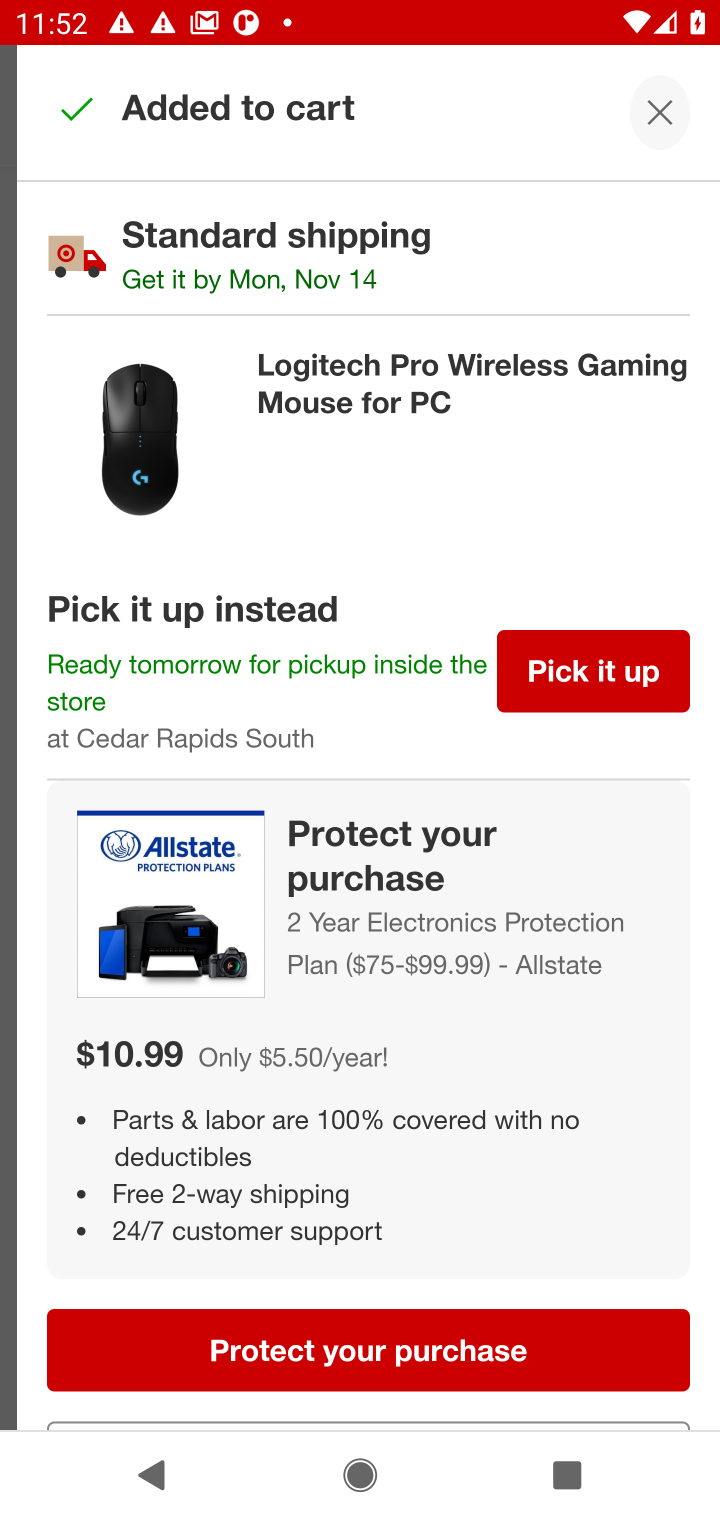
Step 28: click (663, 99)
Your task to perform on an android device: Clear the shopping cart on target. Add logitech g pro to the cart on target, then select checkout. Image 29: 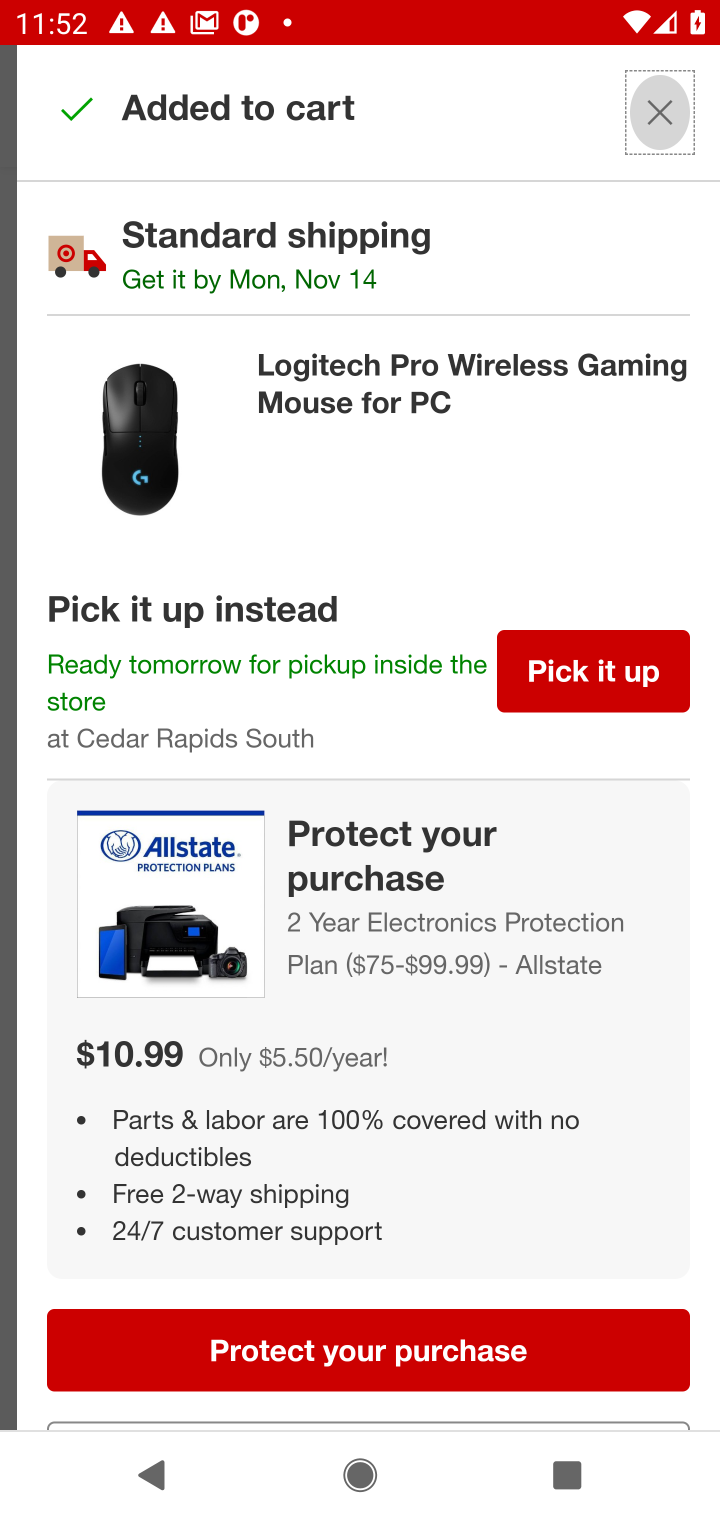
Step 29: click (659, 110)
Your task to perform on an android device: Clear the shopping cart on target. Add logitech g pro to the cart on target, then select checkout. Image 30: 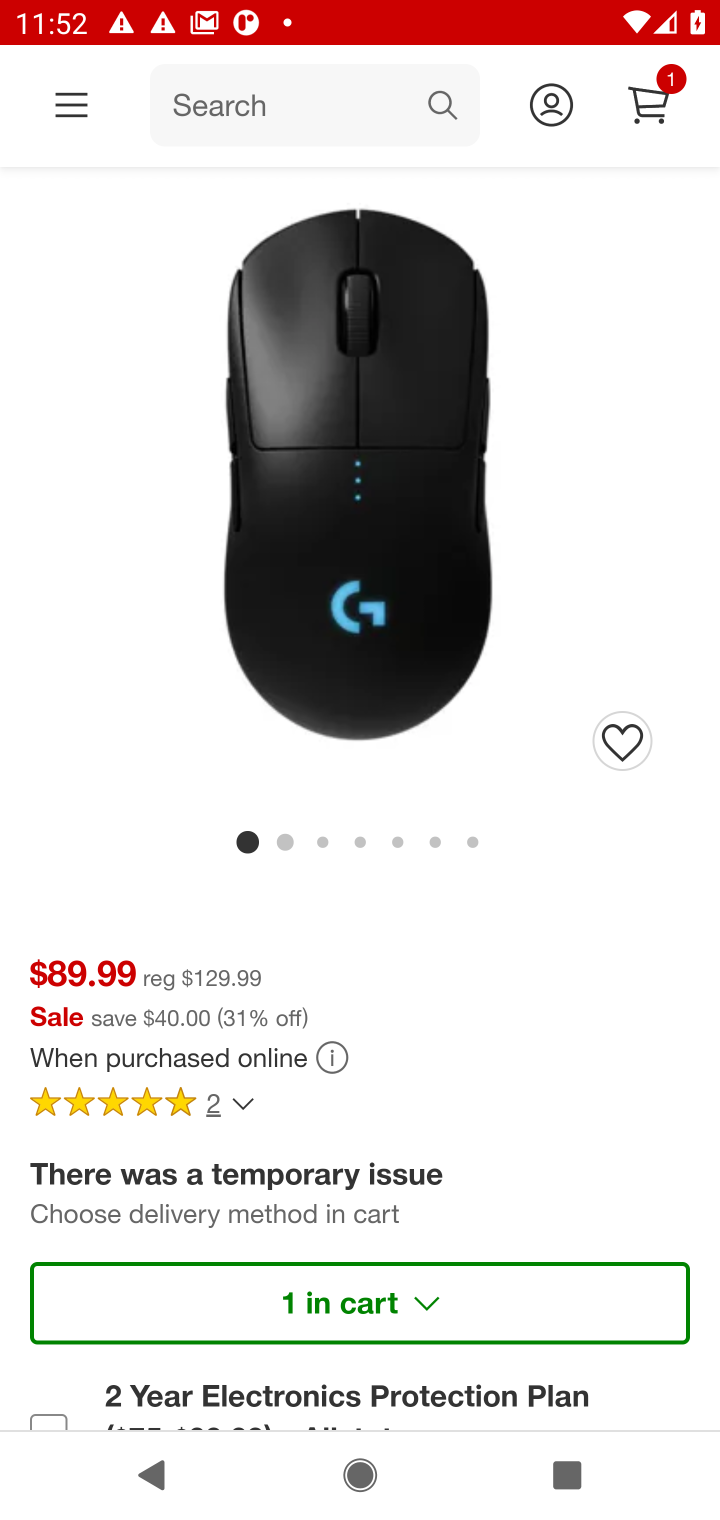
Step 30: click (659, 110)
Your task to perform on an android device: Clear the shopping cart on target. Add logitech g pro to the cart on target, then select checkout. Image 31: 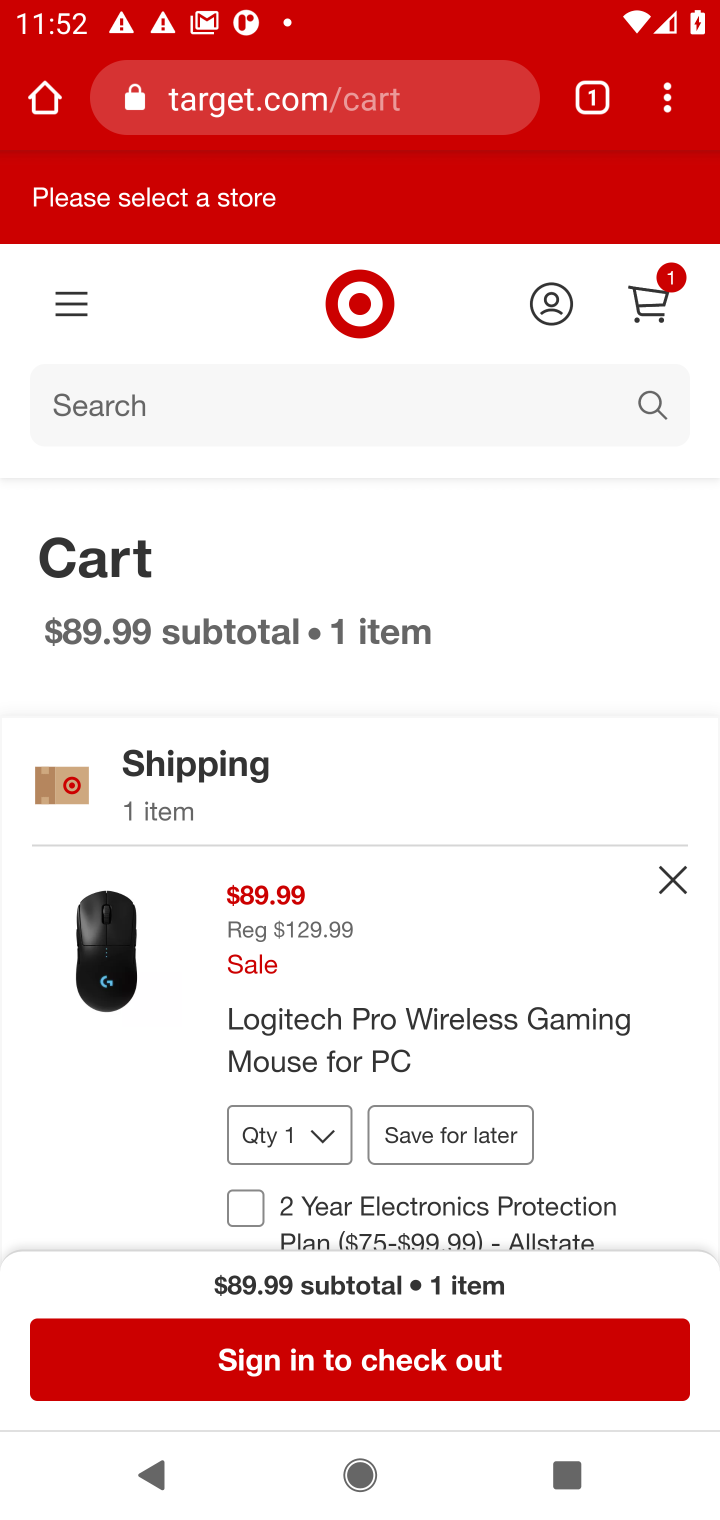
Step 31: click (423, 1374)
Your task to perform on an android device: Clear the shopping cart on target. Add logitech g pro to the cart on target, then select checkout. Image 32: 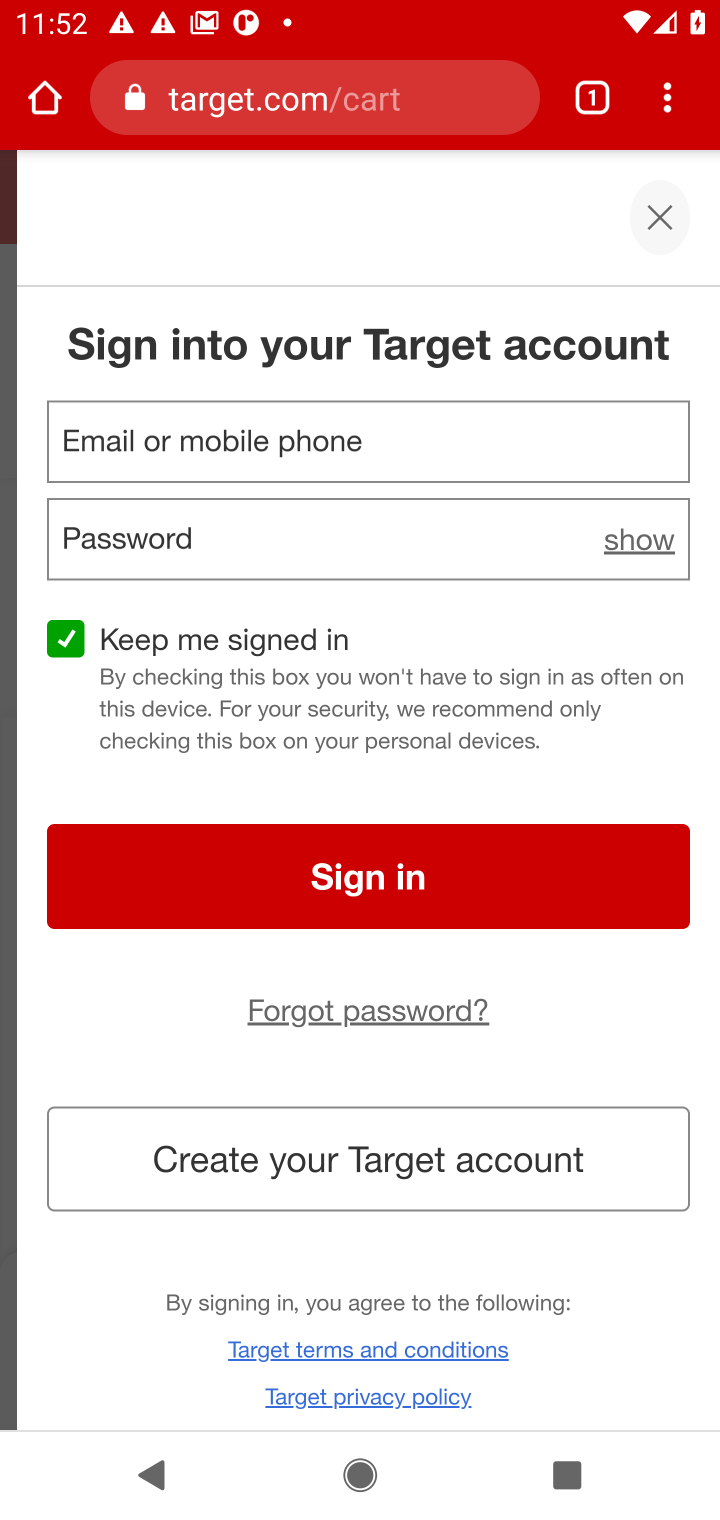
Step 32: task complete